Your task to perform on an android device: Clear the shopping cart on target. Add "usb-a to usb-b" to the cart on target, then select checkout. Image 0: 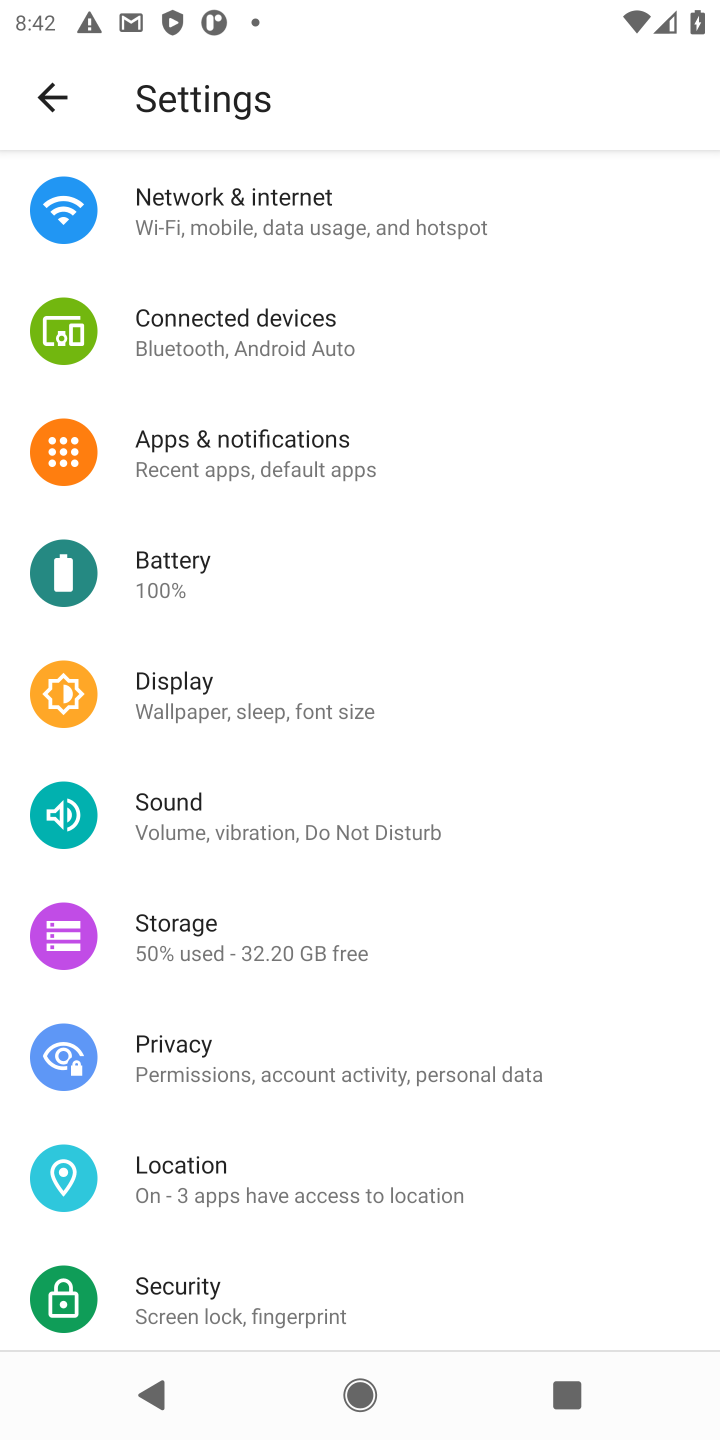
Step 0: press home button
Your task to perform on an android device: Clear the shopping cart on target. Add "usb-a to usb-b" to the cart on target, then select checkout. Image 1: 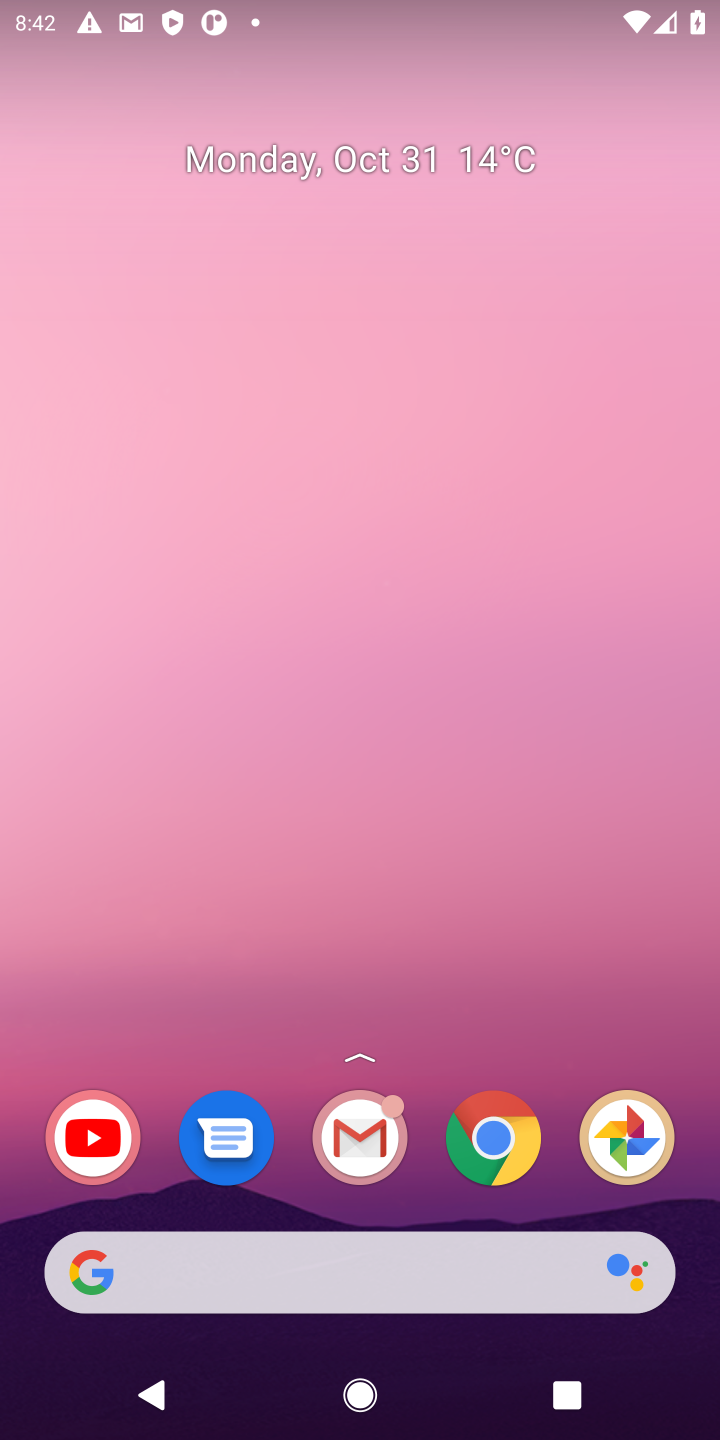
Step 1: click (505, 1148)
Your task to perform on an android device: Clear the shopping cart on target. Add "usb-a to usb-b" to the cart on target, then select checkout. Image 2: 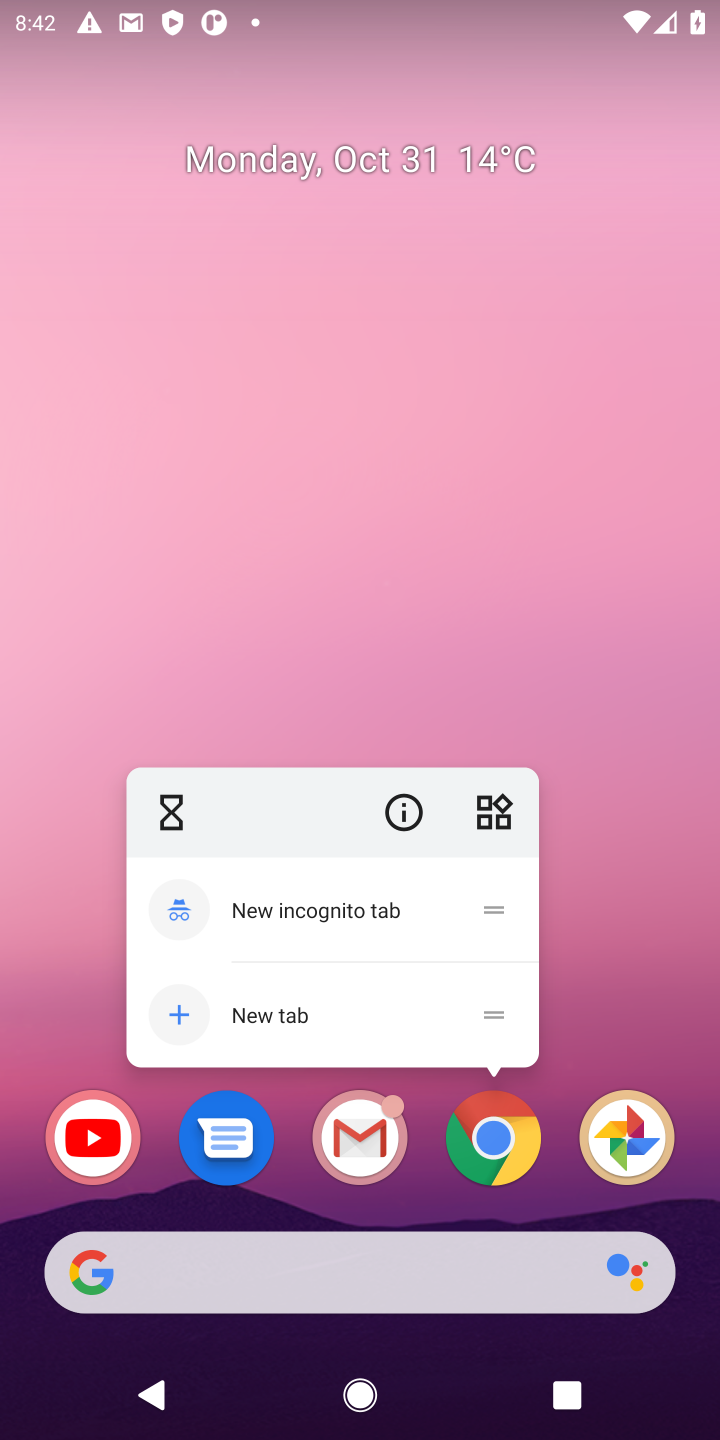
Step 2: click (528, 1152)
Your task to perform on an android device: Clear the shopping cart on target. Add "usb-a to usb-b" to the cart on target, then select checkout. Image 3: 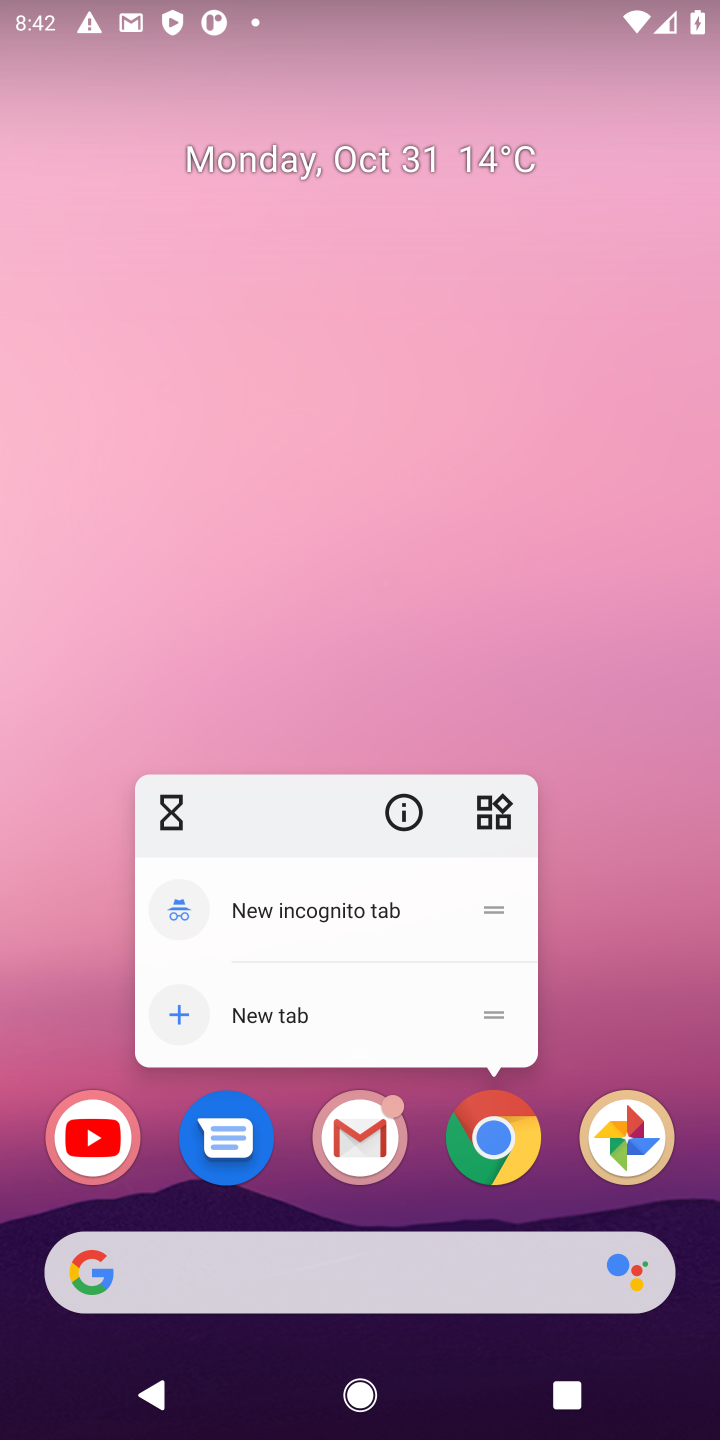
Step 3: click (467, 1132)
Your task to perform on an android device: Clear the shopping cart on target. Add "usb-a to usb-b" to the cart on target, then select checkout. Image 4: 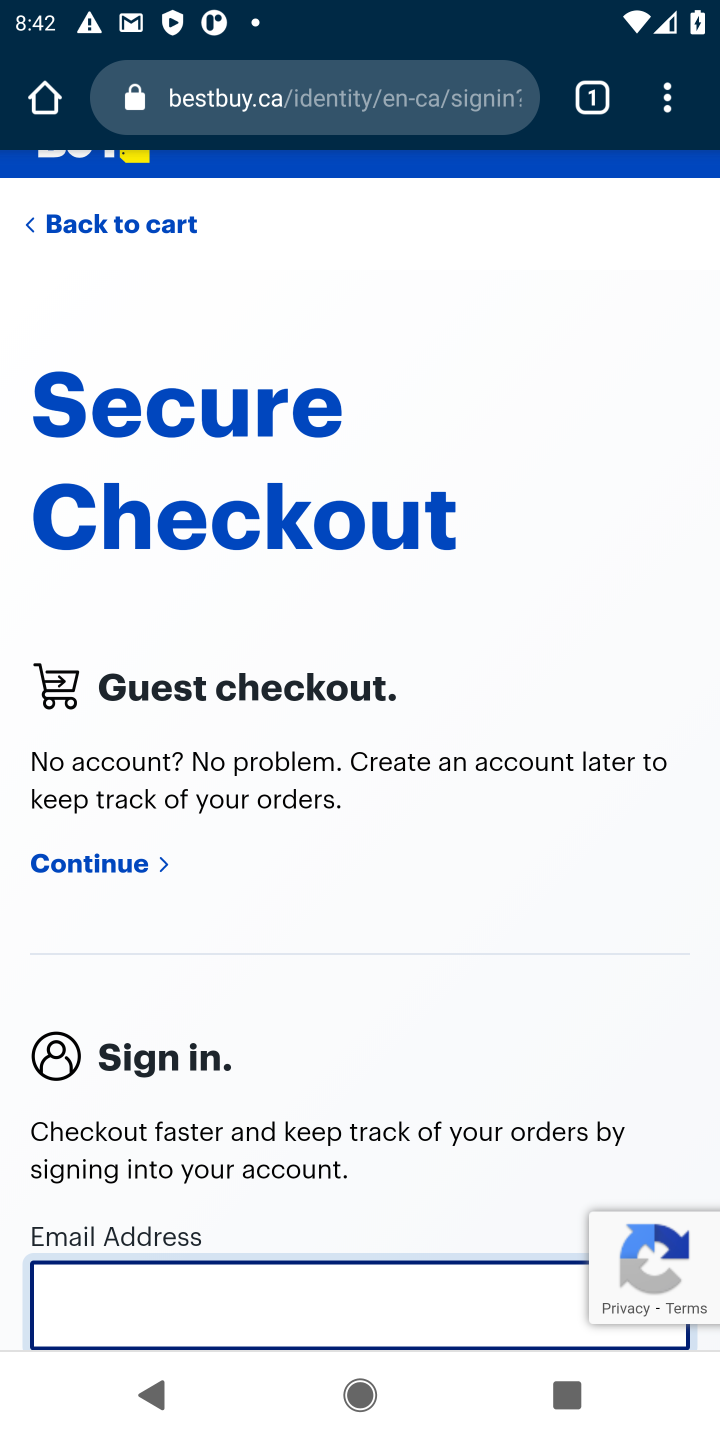
Step 4: click (286, 107)
Your task to perform on an android device: Clear the shopping cart on target. Add "usb-a to usb-b" to the cart on target, then select checkout. Image 5: 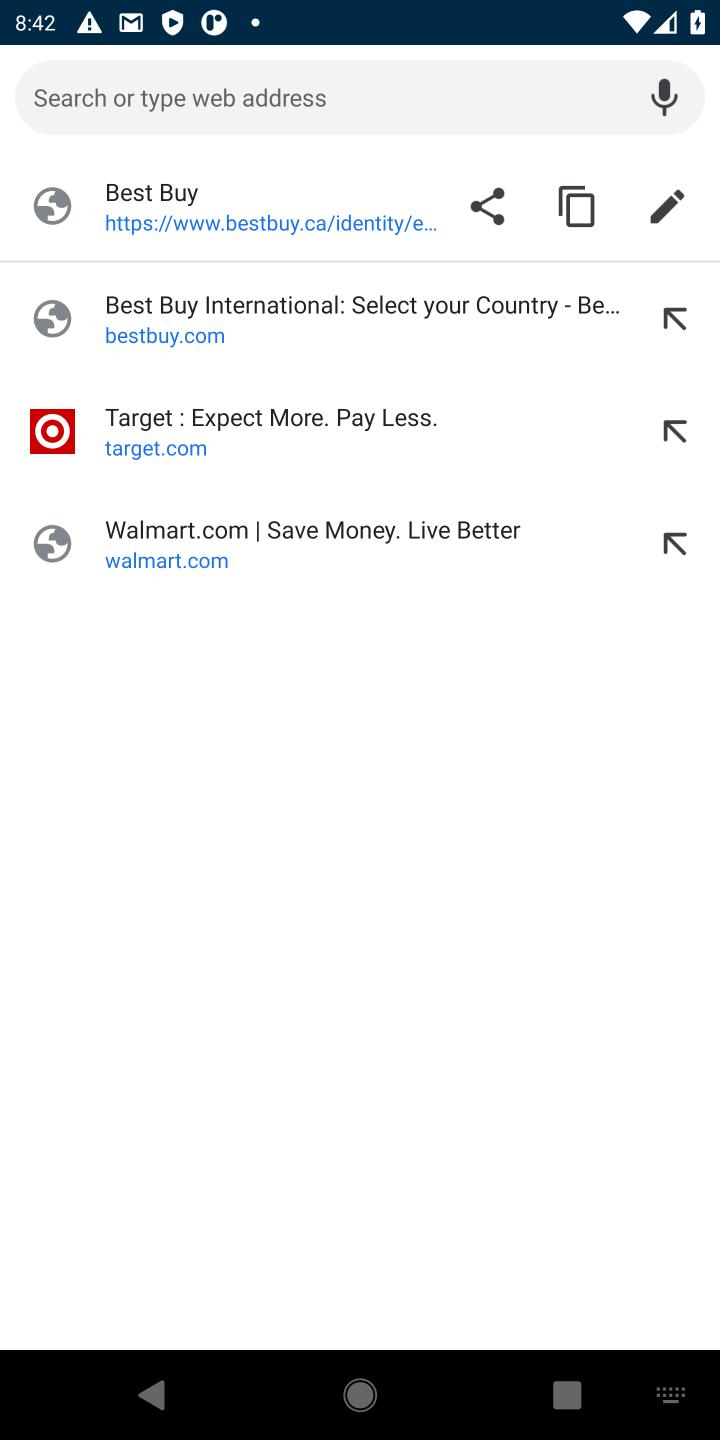
Step 5: type "target"
Your task to perform on an android device: Clear the shopping cart on target. Add "usb-a to usb-b" to the cart on target, then select checkout. Image 6: 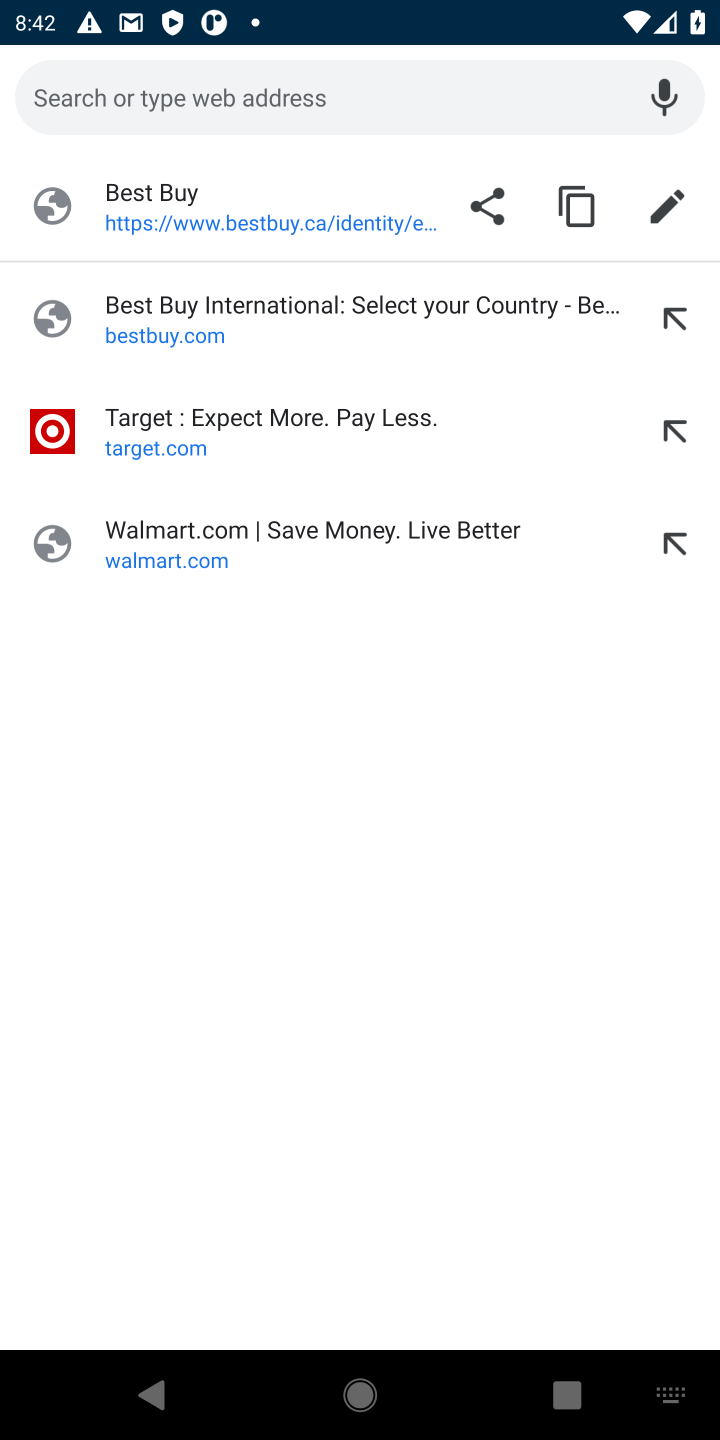
Step 6: click (108, 426)
Your task to perform on an android device: Clear the shopping cart on target. Add "usb-a to usb-b" to the cart on target, then select checkout. Image 7: 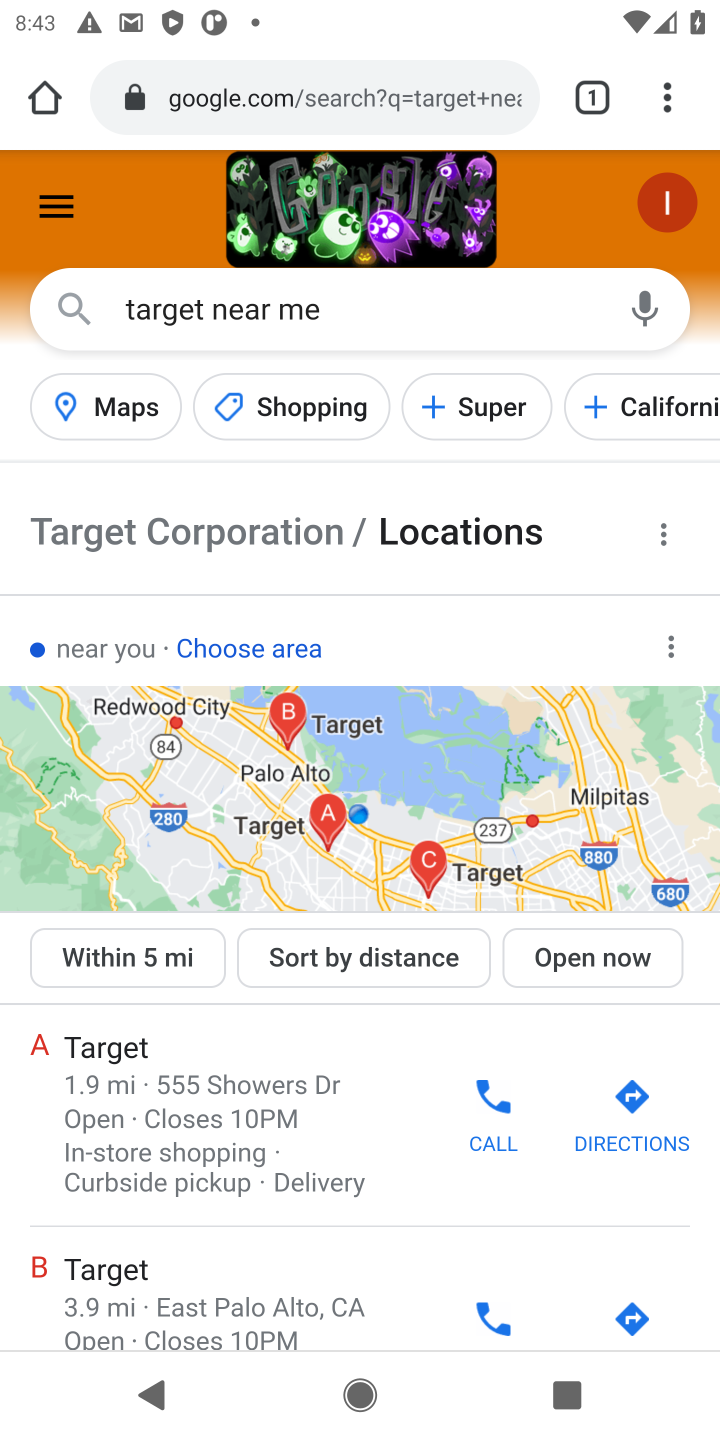
Step 7: drag from (183, 1178) to (242, 638)
Your task to perform on an android device: Clear the shopping cart on target. Add "usb-a to usb-b" to the cart on target, then select checkout. Image 8: 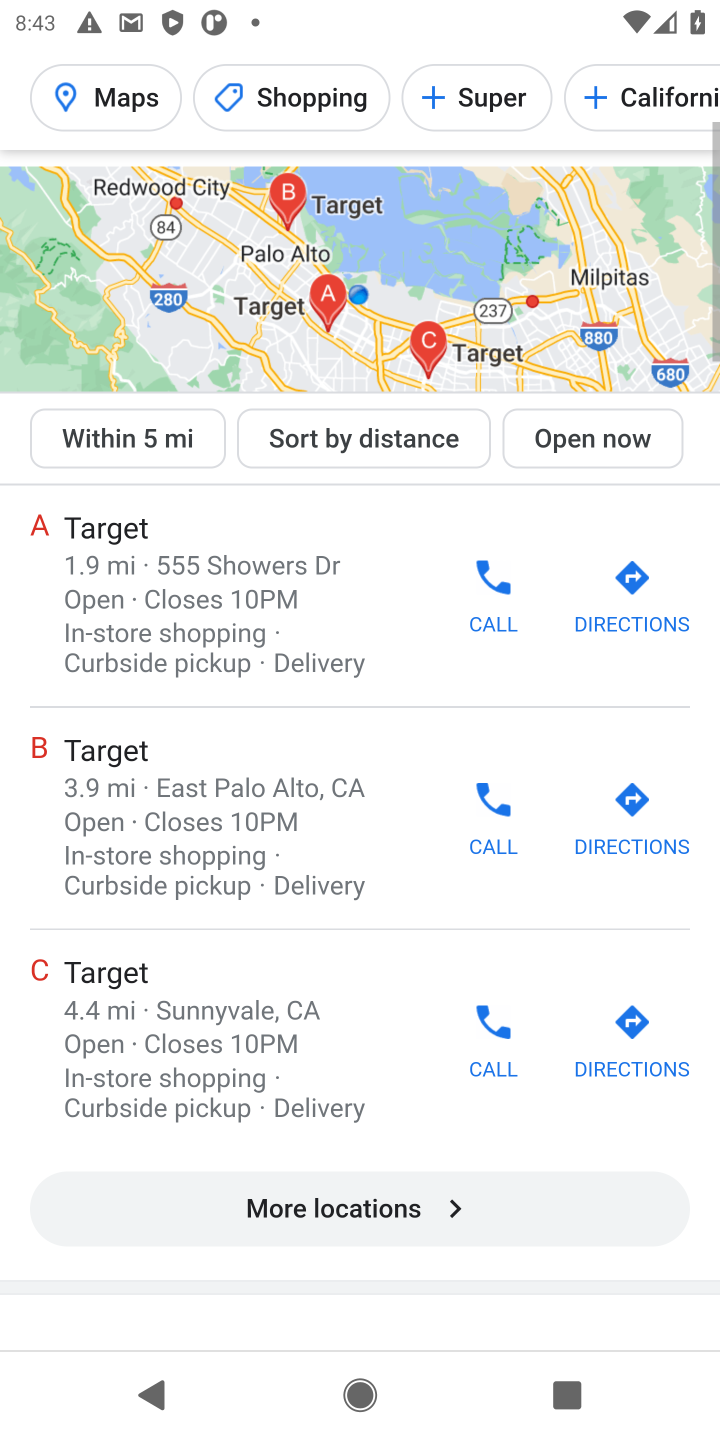
Step 8: drag from (174, 1117) to (192, 536)
Your task to perform on an android device: Clear the shopping cart on target. Add "usb-a to usb-b" to the cart on target, then select checkout. Image 9: 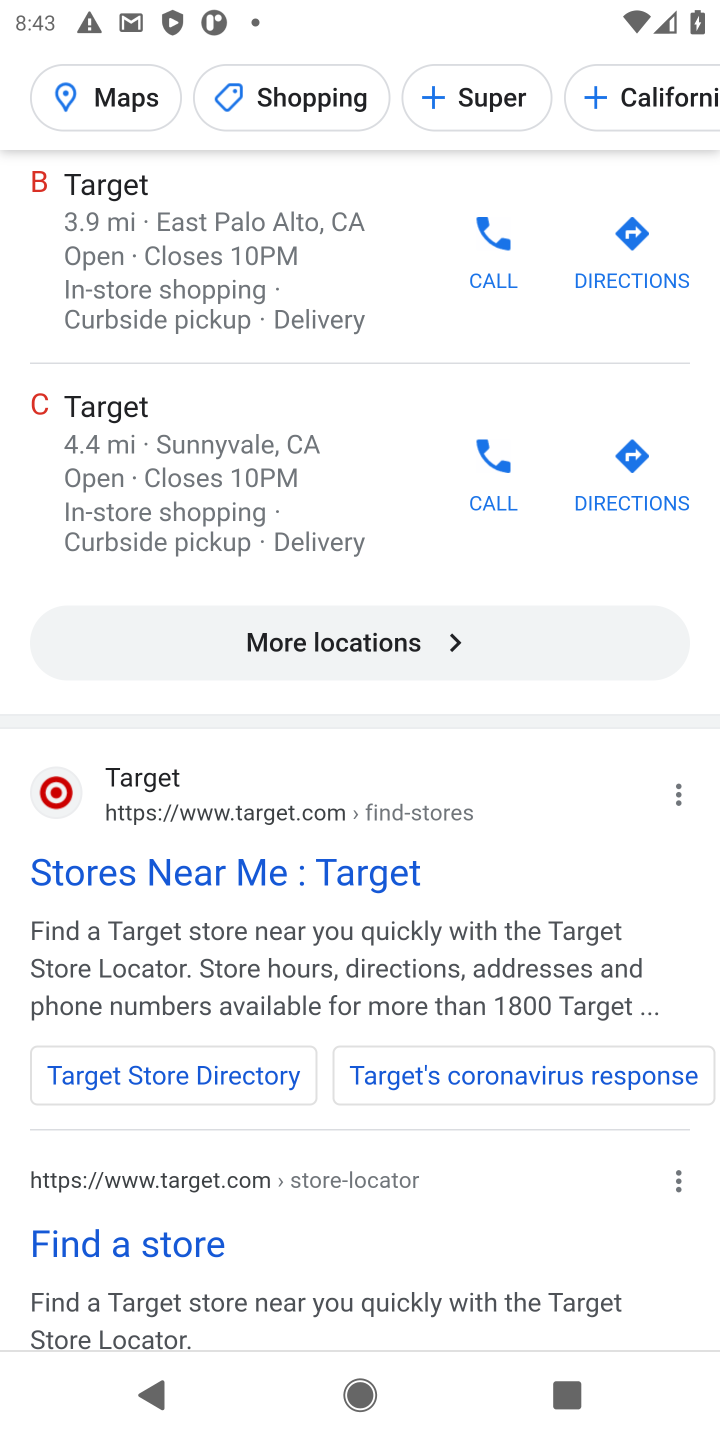
Step 9: drag from (248, 870) to (325, 415)
Your task to perform on an android device: Clear the shopping cart on target. Add "usb-a to usb-b" to the cart on target, then select checkout. Image 10: 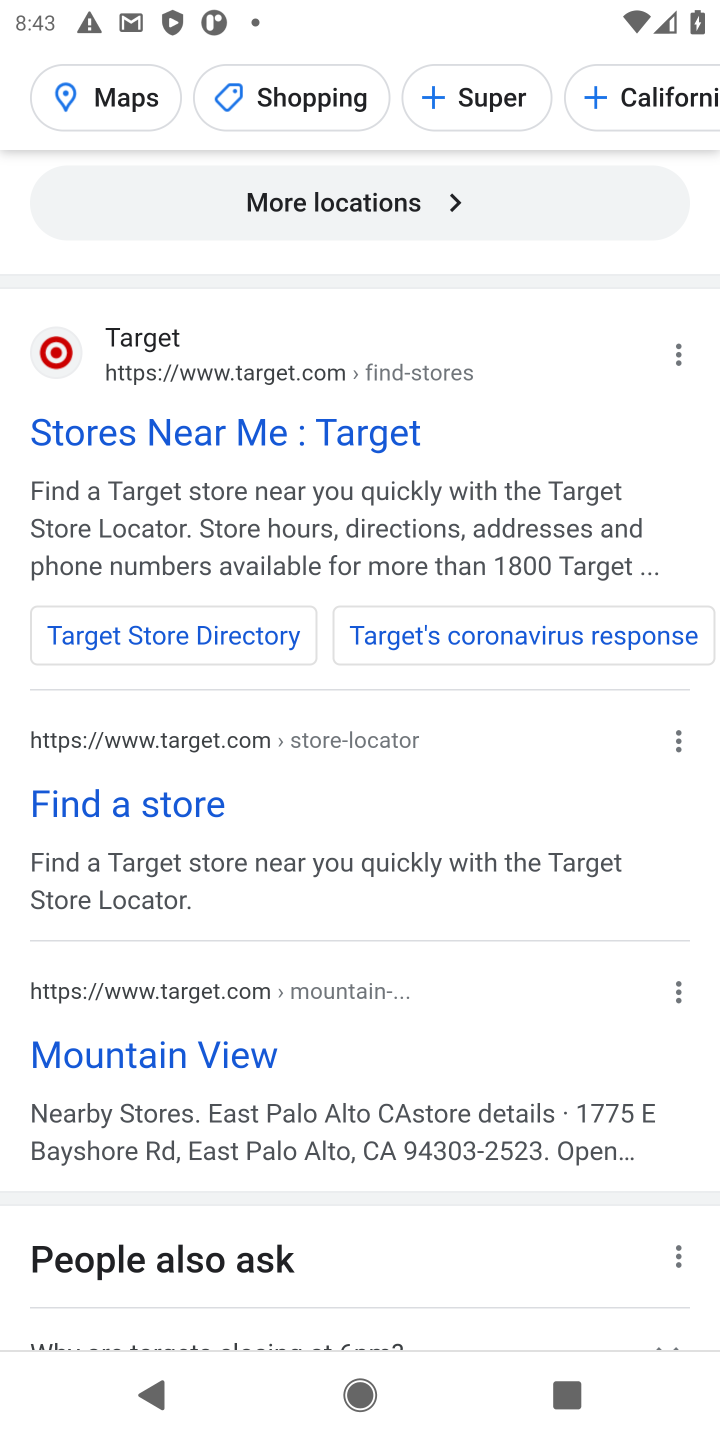
Step 10: click (106, 432)
Your task to perform on an android device: Clear the shopping cart on target. Add "usb-a to usb-b" to the cart on target, then select checkout. Image 11: 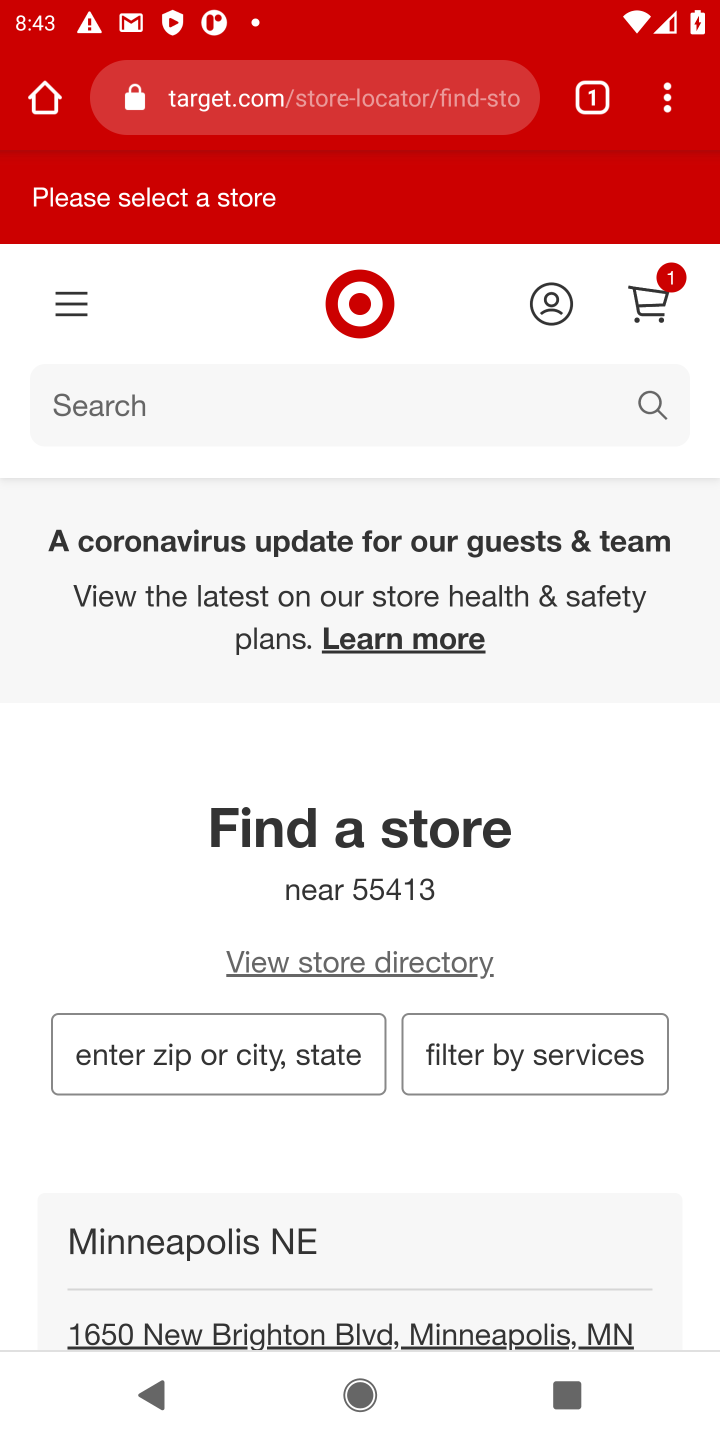
Step 11: click (639, 300)
Your task to perform on an android device: Clear the shopping cart on target. Add "usb-a to usb-b" to the cart on target, then select checkout. Image 12: 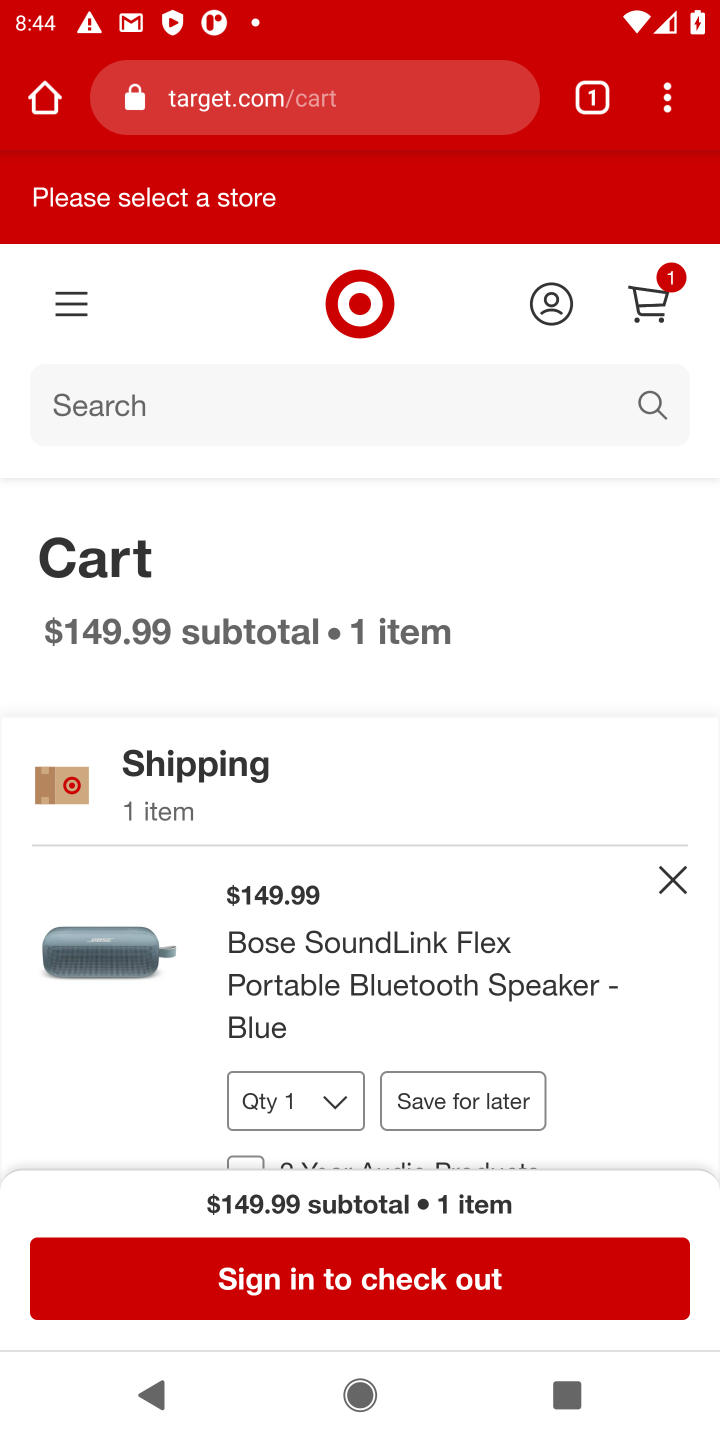
Step 12: drag from (105, 1036) to (166, 637)
Your task to perform on an android device: Clear the shopping cart on target. Add "usb-a to usb-b" to the cart on target, then select checkout. Image 13: 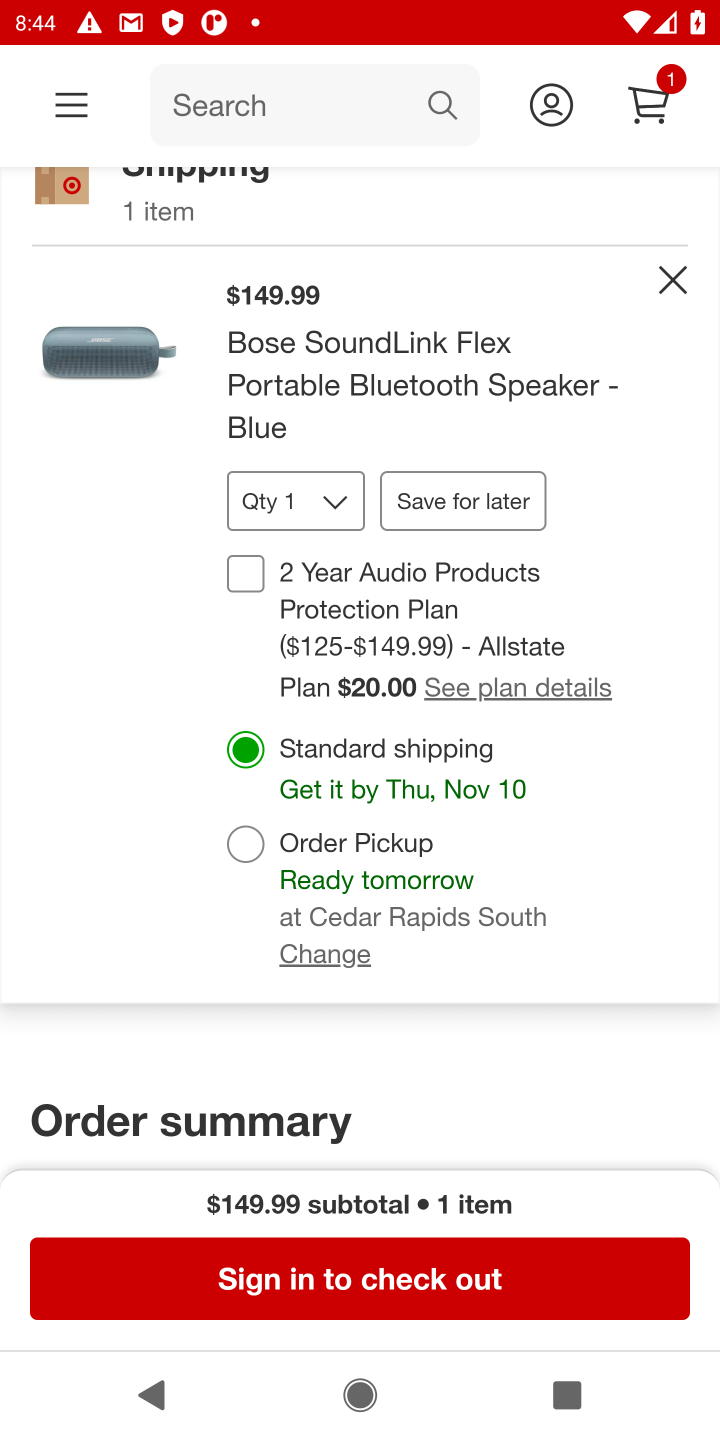
Step 13: drag from (158, 437) to (200, 534)
Your task to perform on an android device: Clear the shopping cart on target. Add "usb-a to usb-b" to the cart on target, then select checkout. Image 14: 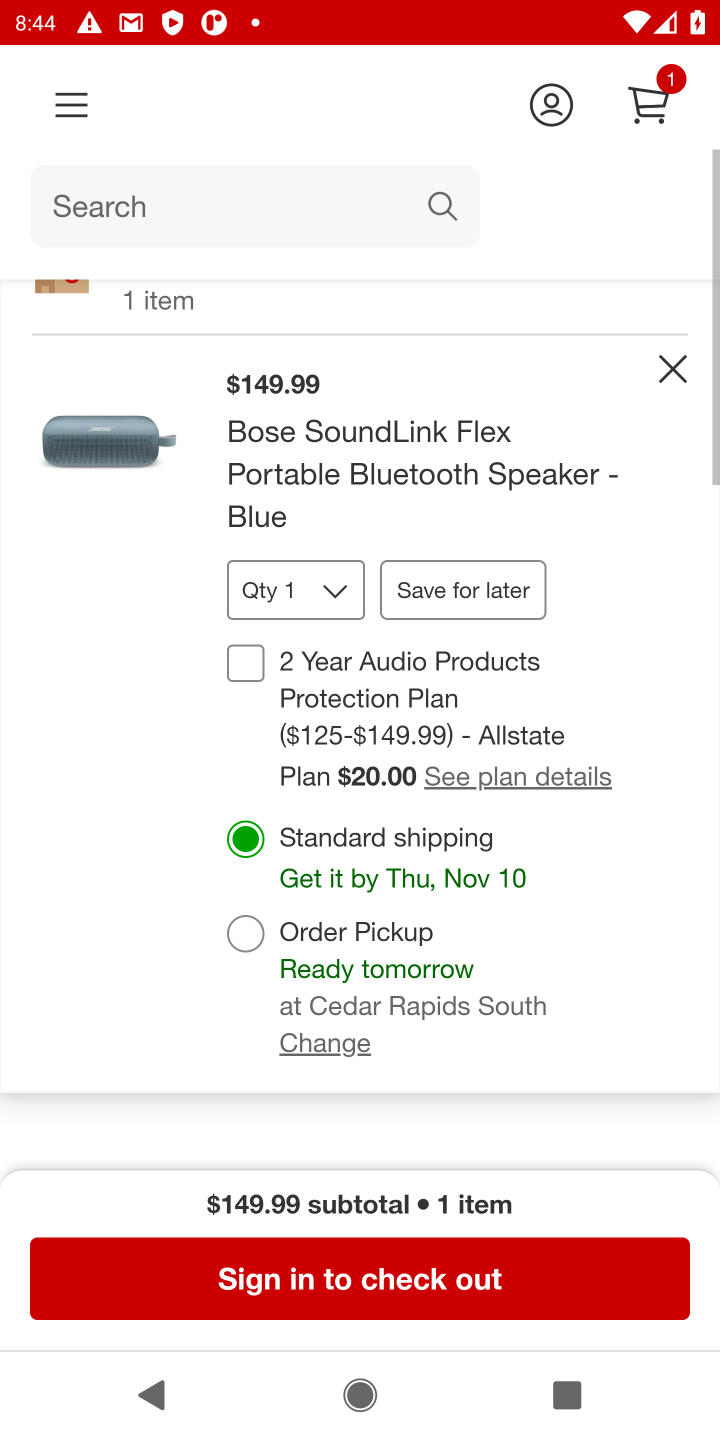
Step 14: drag from (105, 990) to (120, 451)
Your task to perform on an android device: Clear the shopping cart on target. Add "usb-a to usb-b" to the cart on target, then select checkout. Image 15: 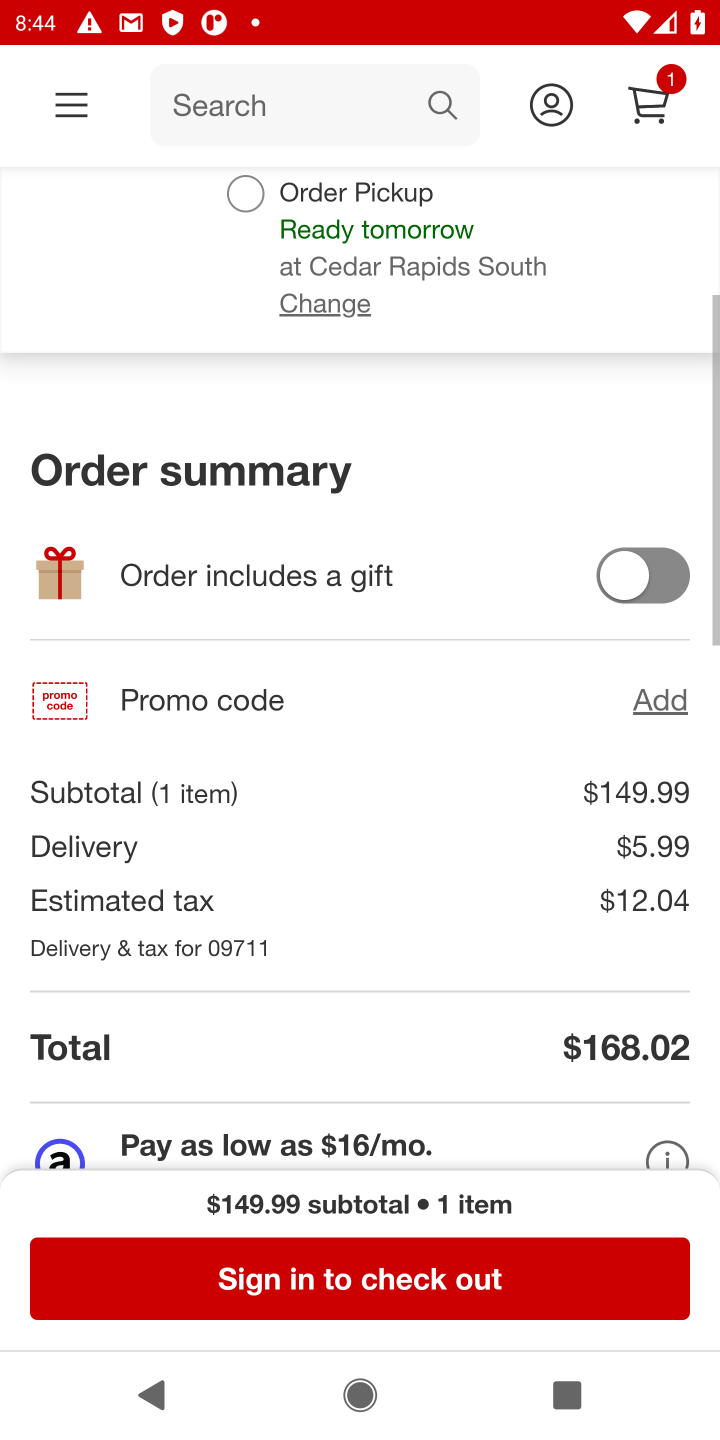
Step 15: drag from (163, 325) to (178, 1011)
Your task to perform on an android device: Clear the shopping cart on target. Add "usb-a to usb-b" to the cart on target, then select checkout. Image 16: 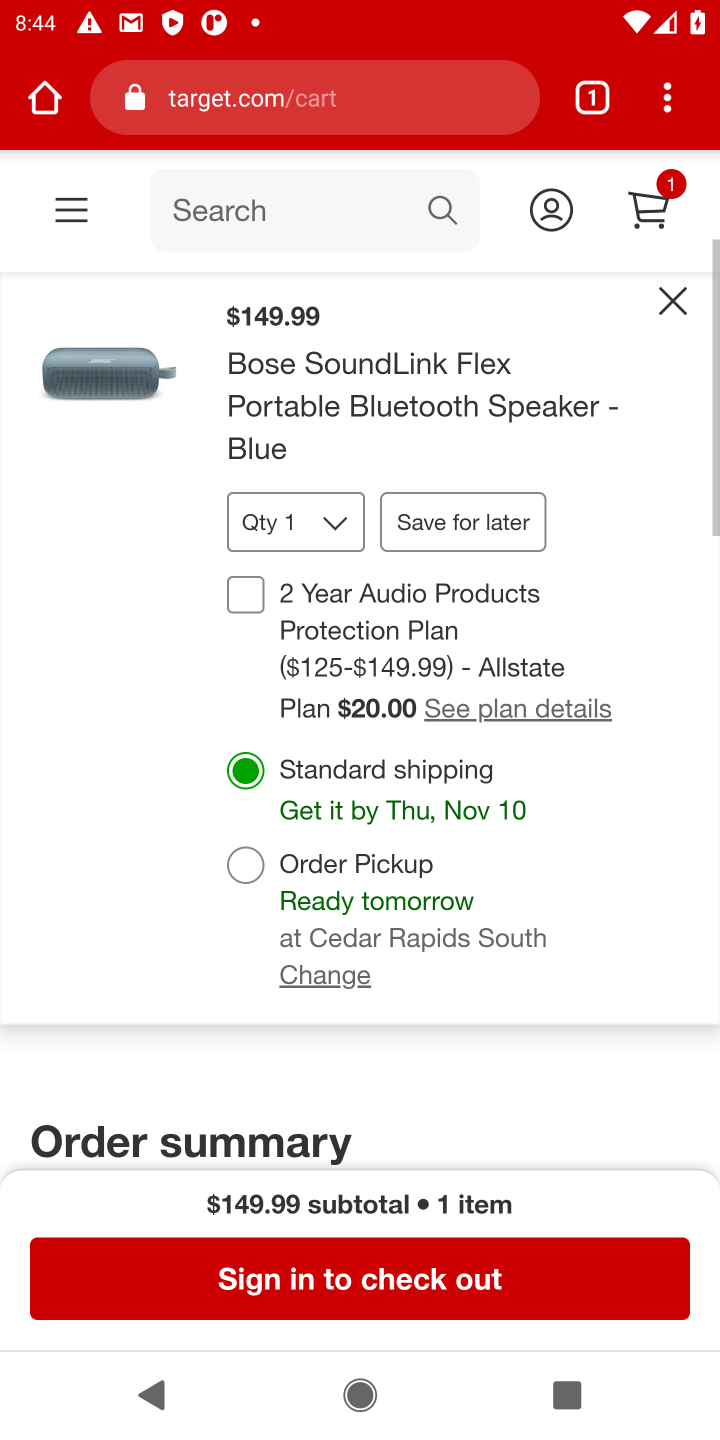
Step 16: drag from (102, 438) to (135, 955)
Your task to perform on an android device: Clear the shopping cart on target. Add "usb-a to usb-b" to the cart on target, then select checkout. Image 17: 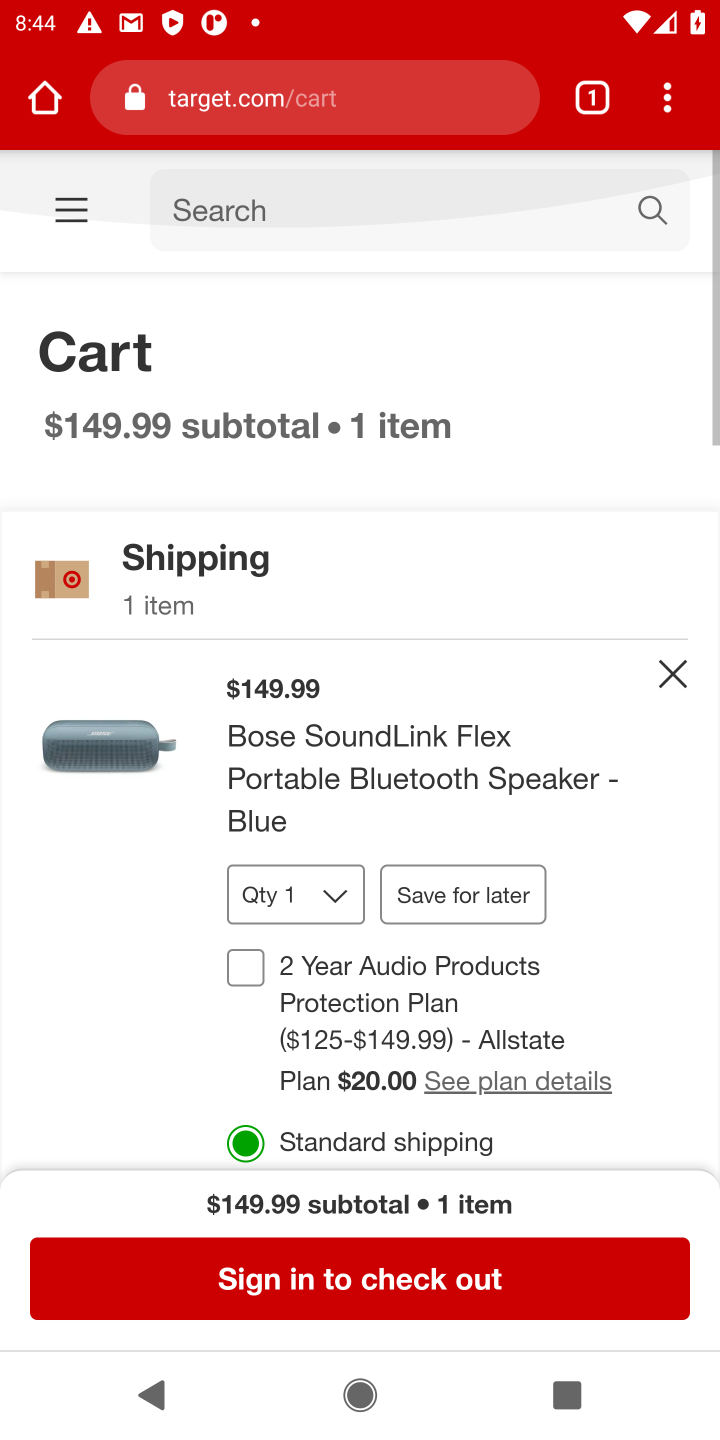
Step 17: press back button
Your task to perform on an android device: Clear the shopping cart on target. Add "usb-a to usb-b" to the cart on target, then select checkout. Image 18: 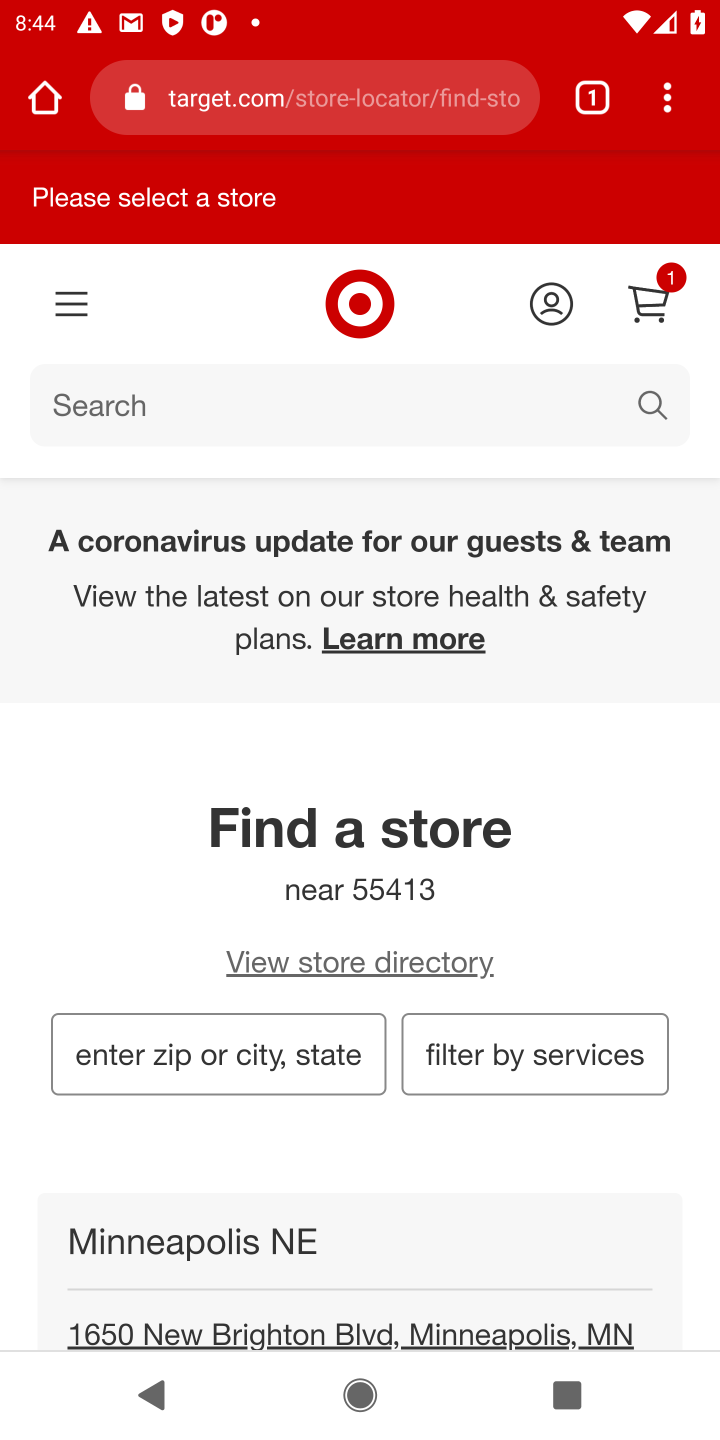
Step 18: click (651, 409)
Your task to perform on an android device: Clear the shopping cart on target. Add "usb-a to usb-b" to the cart on target, then select checkout. Image 19: 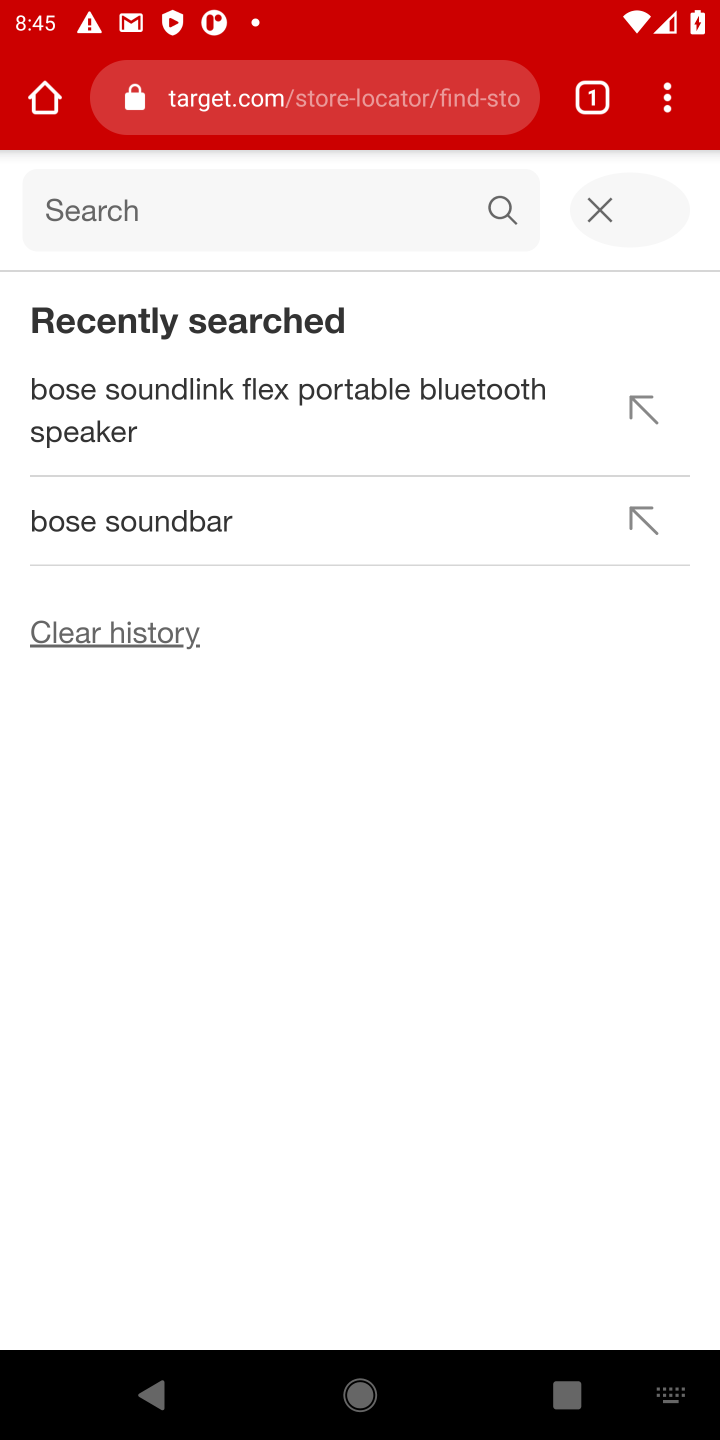
Step 19: type "usb a  to usb b "
Your task to perform on an android device: Clear the shopping cart on target. Add "usb-a to usb-b" to the cart on target, then select checkout. Image 20: 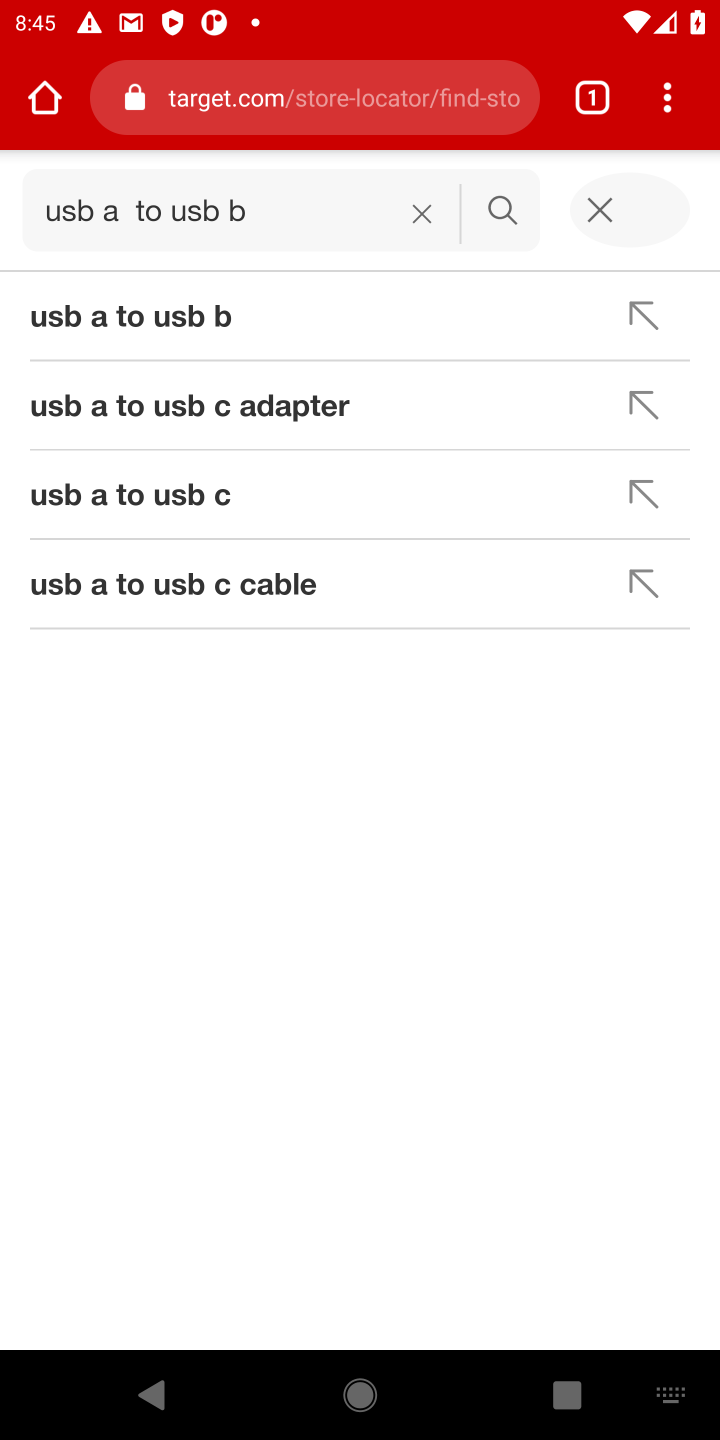
Step 20: click (193, 314)
Your task to perform on an android device: Clear the shopping cart on target. Add "usb-a to usb-b" to the cart on target, then select checkout. Image 21: 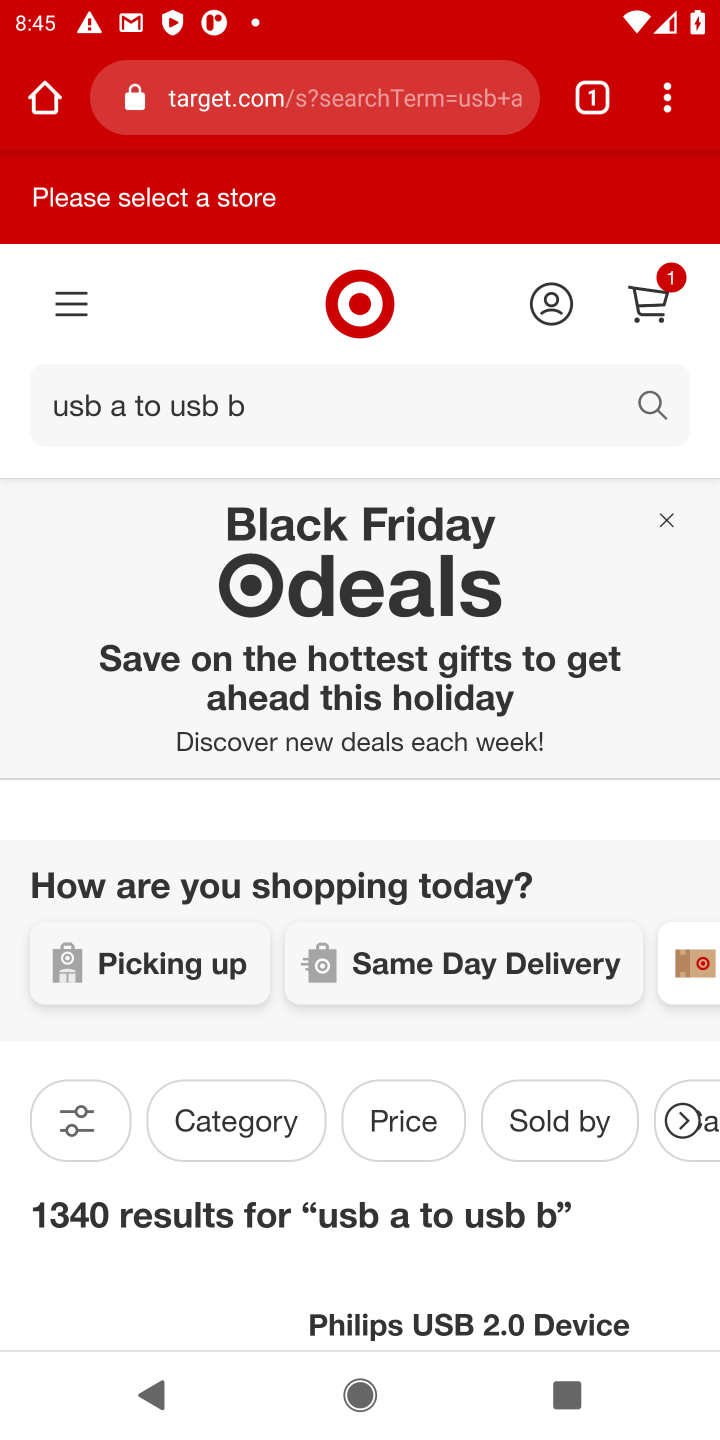
Step 21: drag from (314, 1064) to (369, 166)
Your task to perform on an android device: Clear the shopping cart on target. Add "usb-a to usb-b" to the cart on target, then select checkout. Image 22: 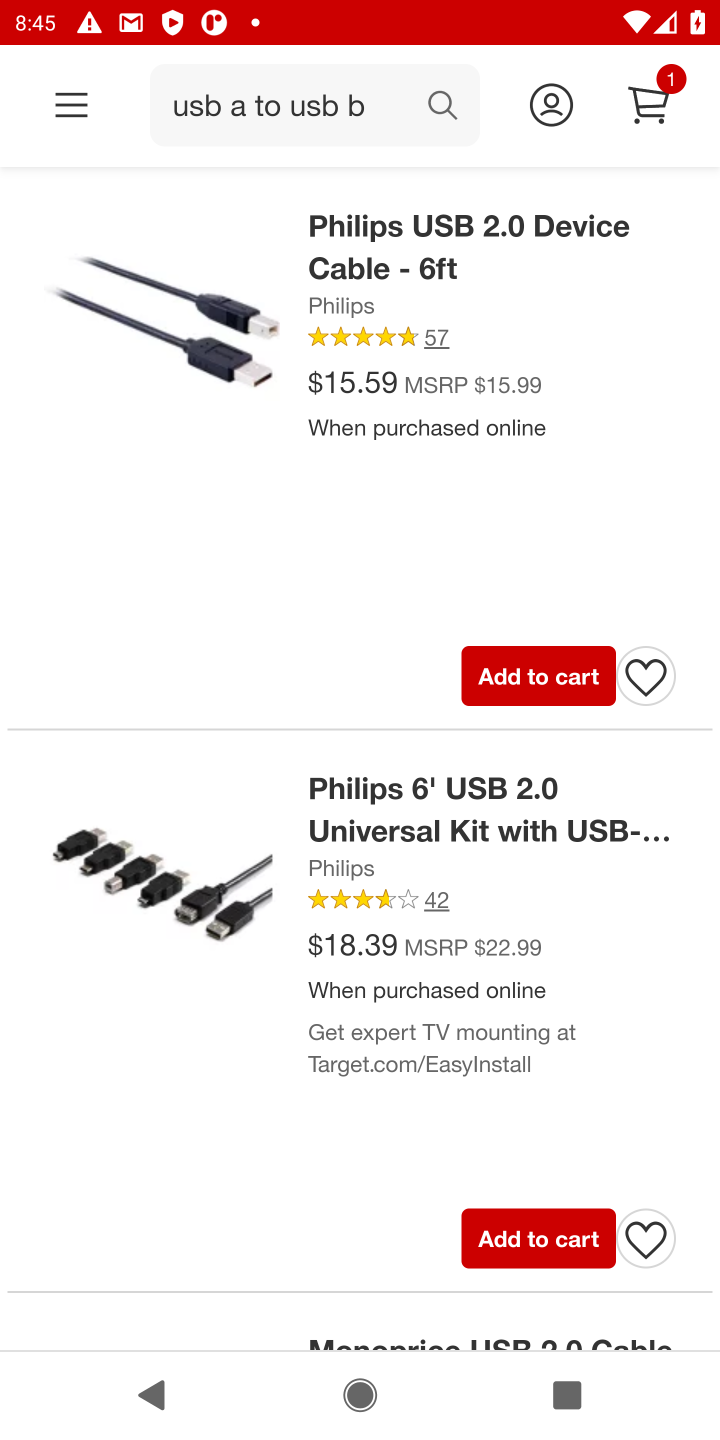
Step 22: drag from (207, 908) to (262, 438)
Your task to perform on an android device: Clear the shopping cart on target. Add "usb-a to usb-b" to the cart on target, then select checkout. Image 23: 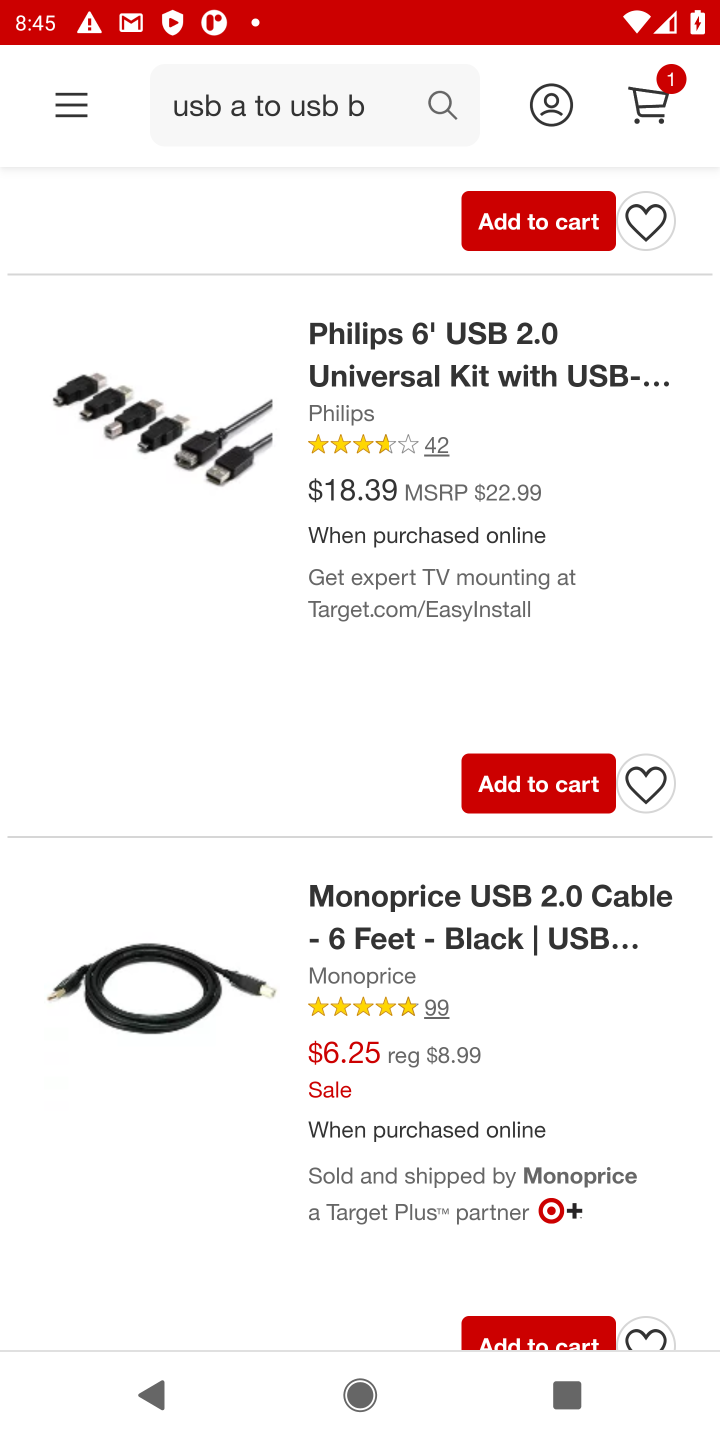
Step 23: click (233, 466)
Your task to perform on an android device: Clear the shopping cart on target. Add "usb-a to usb-b" to the cart on target, then select checkout. Image 24: 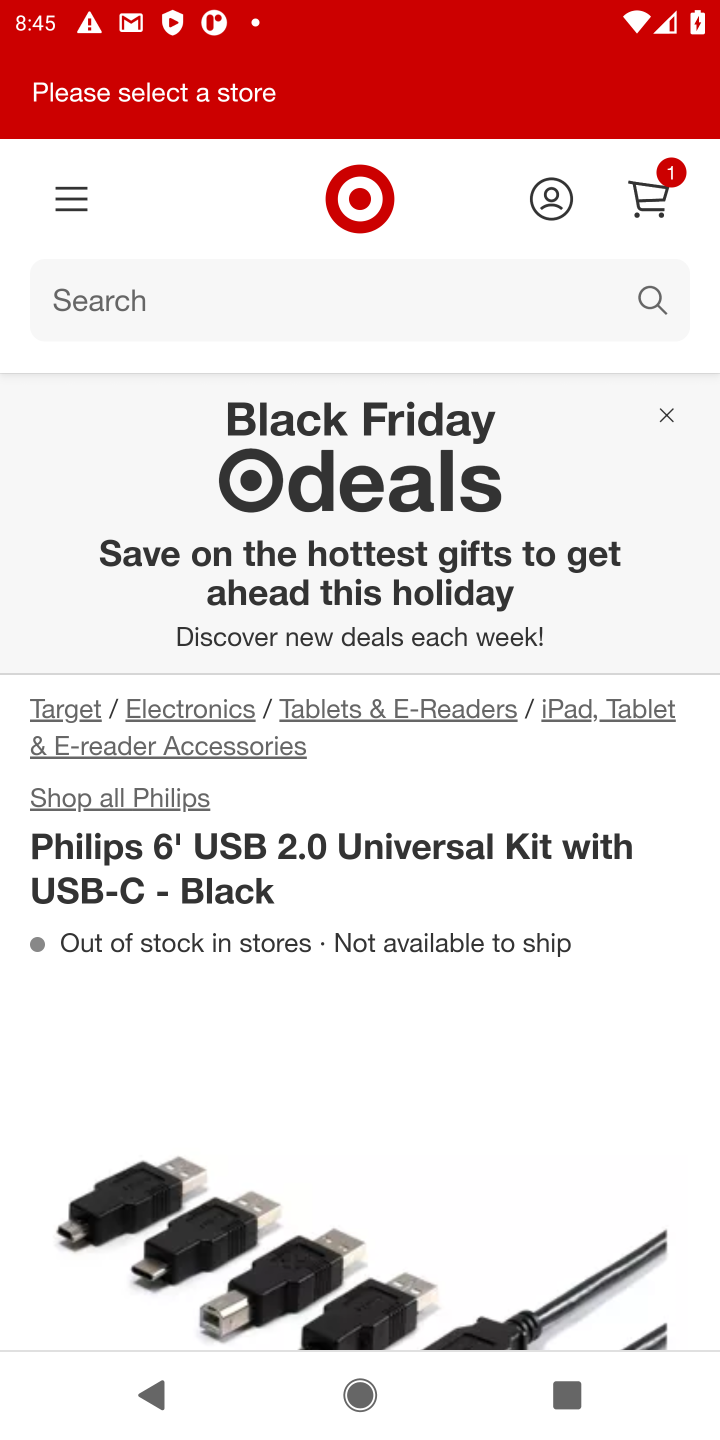
Step 24: drag from (309, 1148) to (348, 563)
Your task to perform on an android device: Clear the shopping cart on target. Add "usb-a to usb-b" to the cart on target, then select checkout. Image 25: 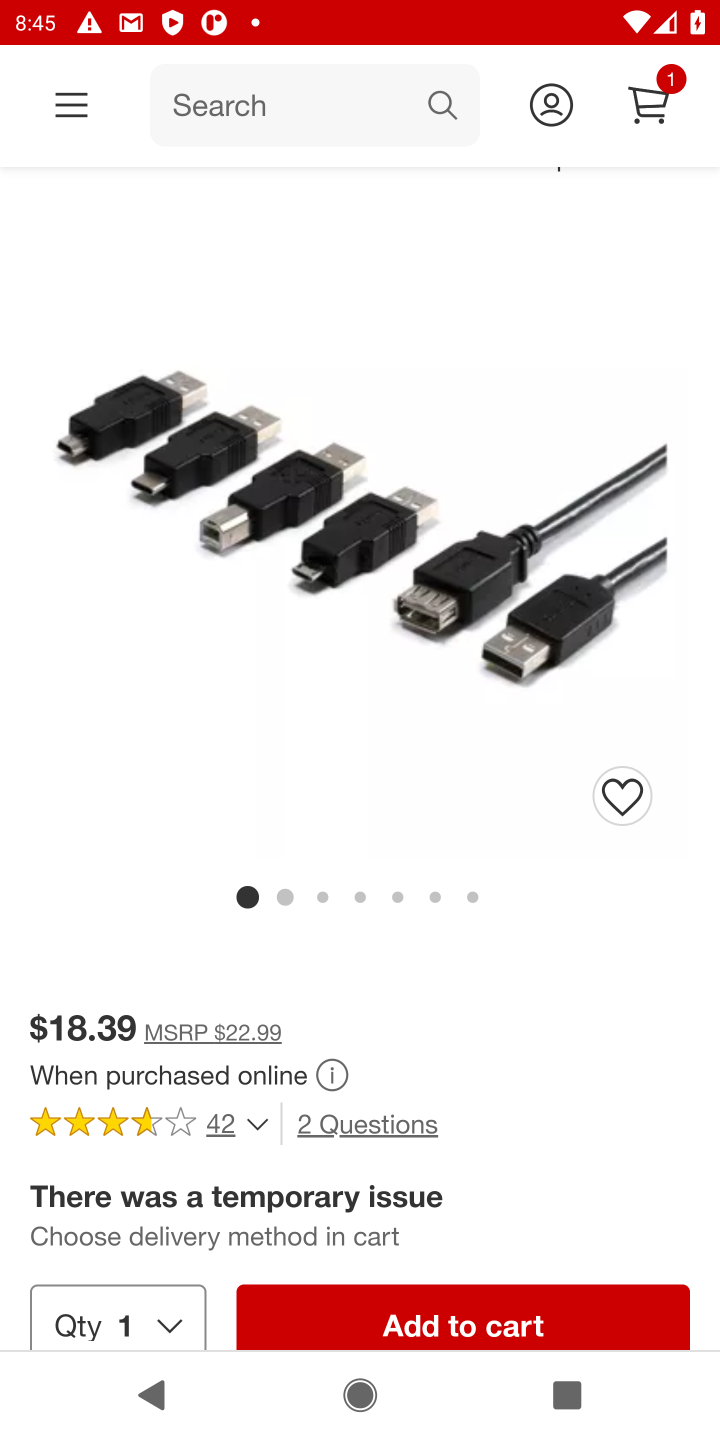
Step 25: drag from (290, 1138) to (312, 843)
Your task to perform on an android device: Clear the shopping cart on target. Add "usb-a to usb-b" to the cart on target, then select checkout. Image 26: 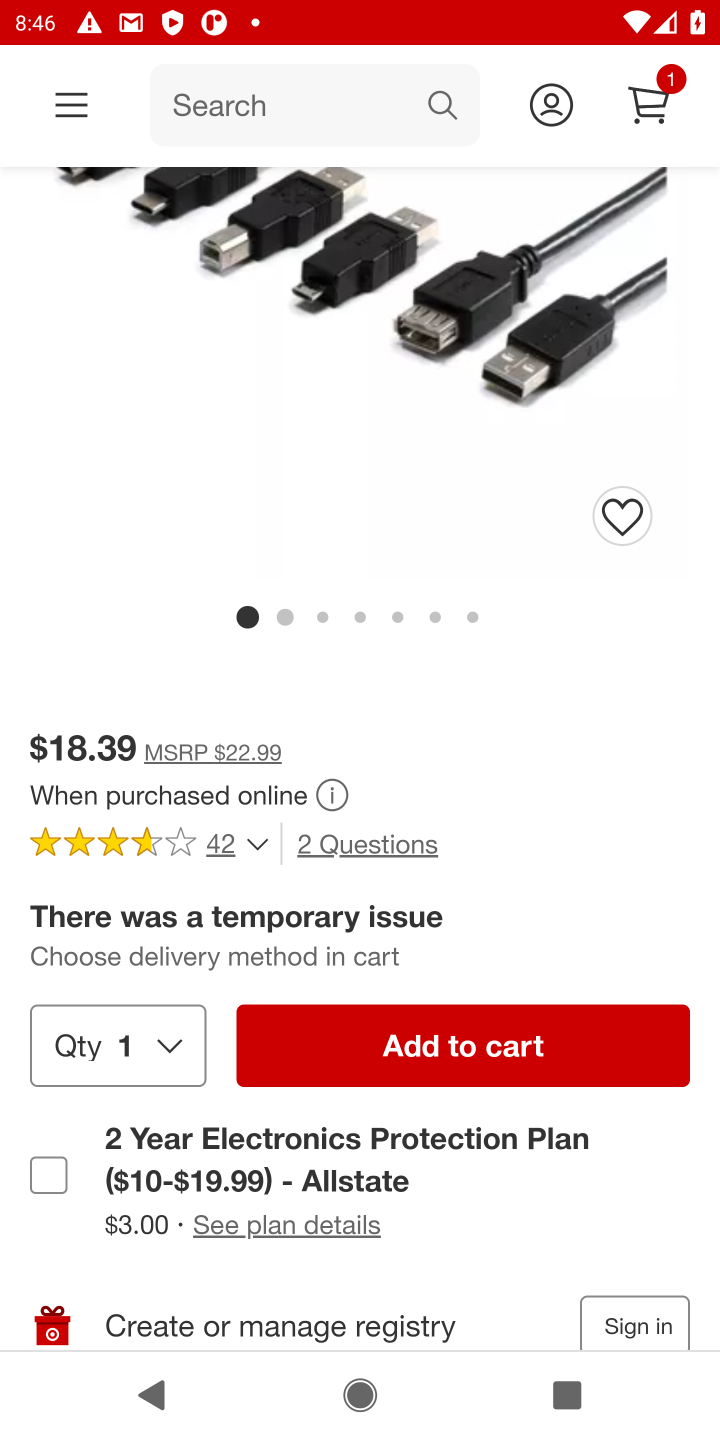
Step 26: click (452, 1043)
Your task to perform on an android device: Clear the shopping cart on target. Add "usb-a to usb-b" to the cart on target, then select checkout. Image 27: 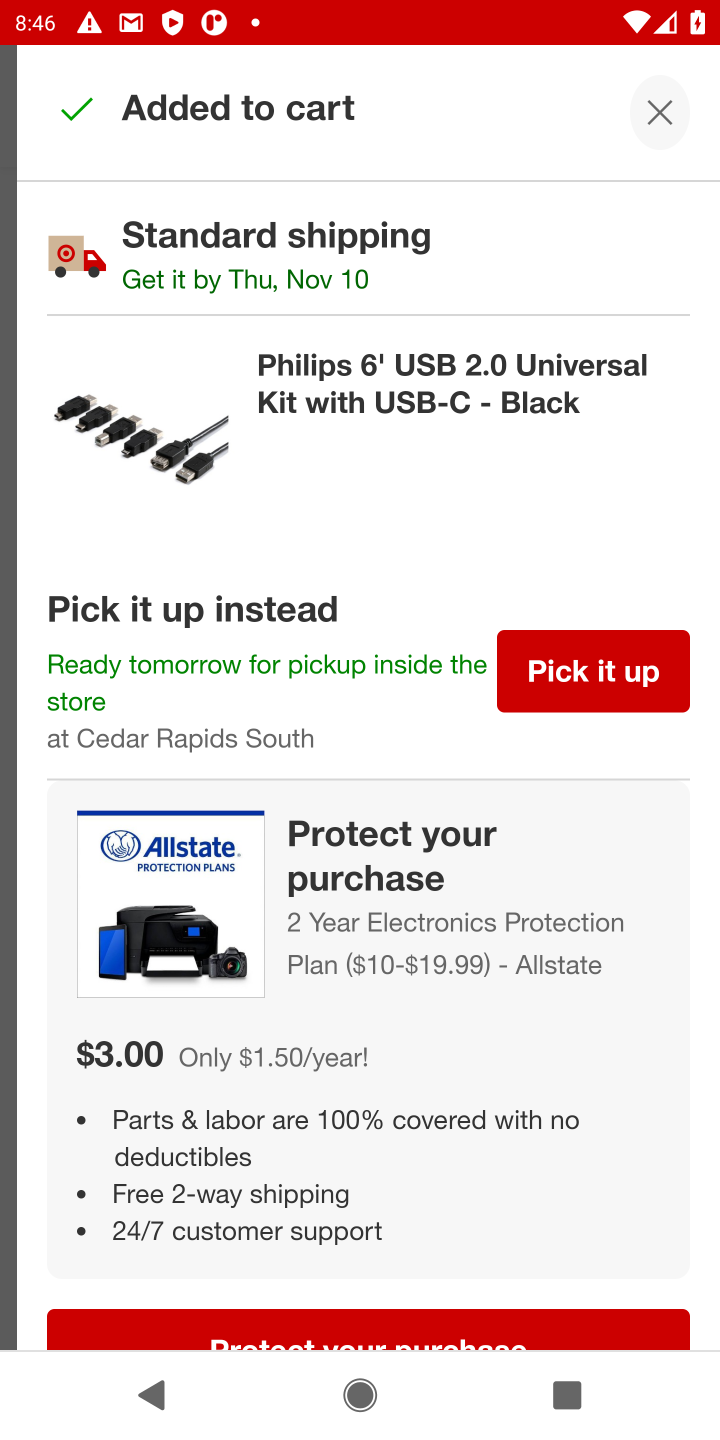
Step 27: drag from (442, 1108) to (482, 588)
Your task to perform on an android device: Clear the shopping cart on target. Add "usb-a to usb-b" to the cart on target, then select checkout. Image 28: 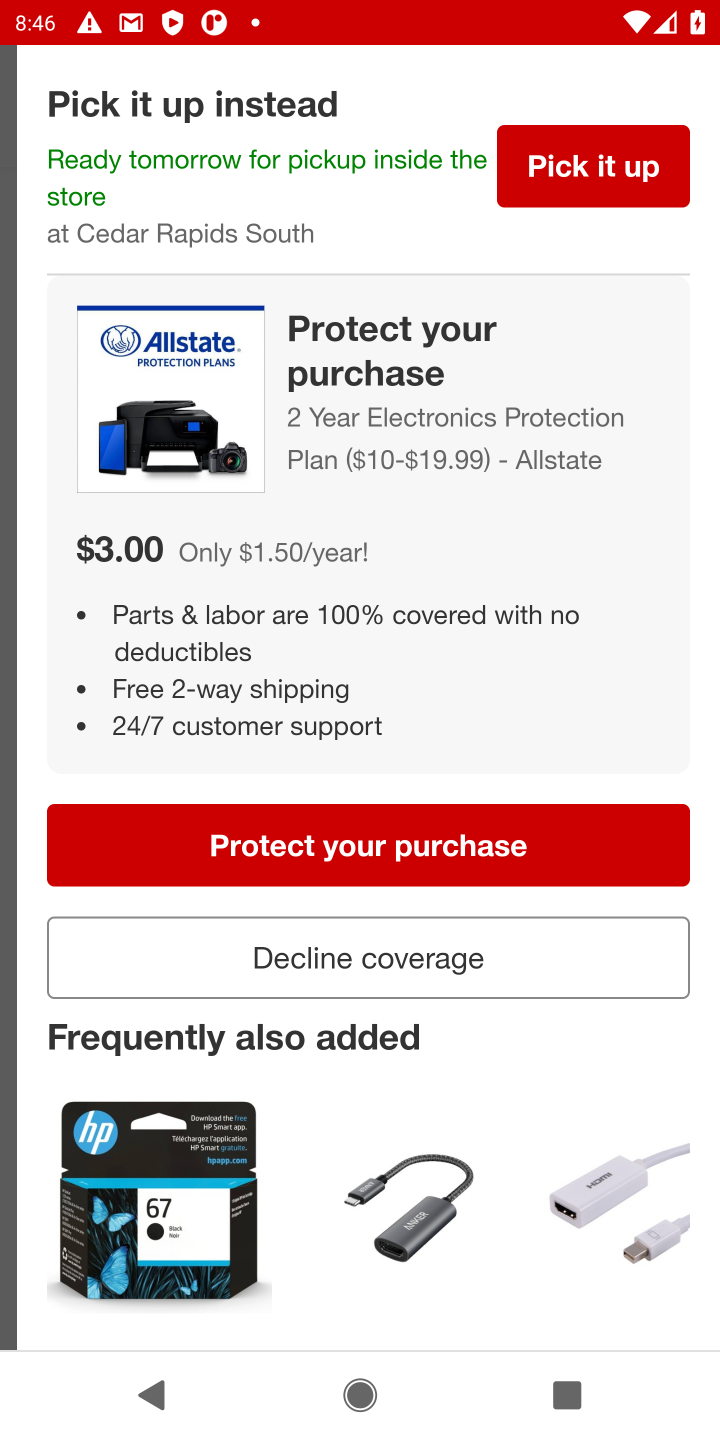
Step 28: drag from (548, 611) to (529, 978)
Your task to perform on an android device: Clear the shopping cart on target. Add "usb-a to usb-b" to the cart on target, then select checkout. Image 29: 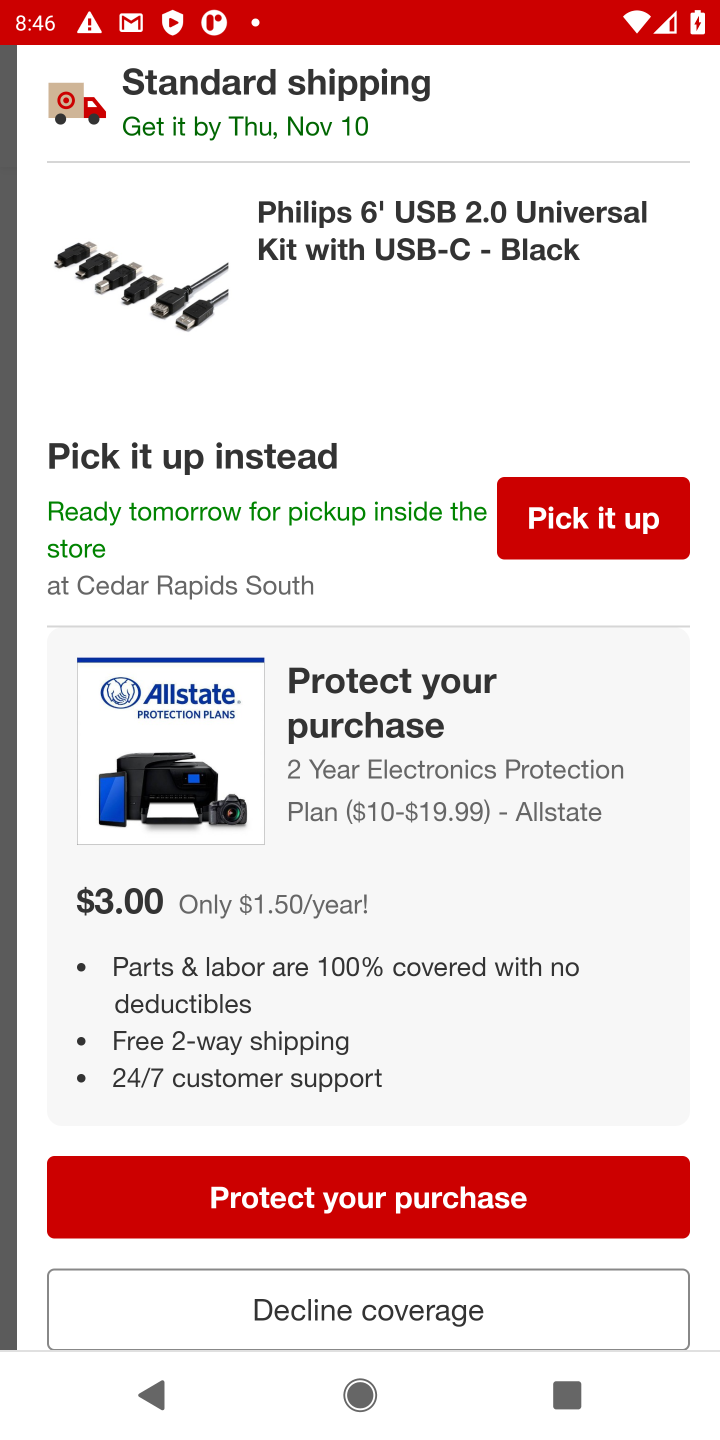
Step 29: drag from (237, 878) to (253, 586)
Your task to perform on an android device: Clear the shopping cart on target. Add "usb-a to usb-b" to the cart on target, then select checkout. Image 30: 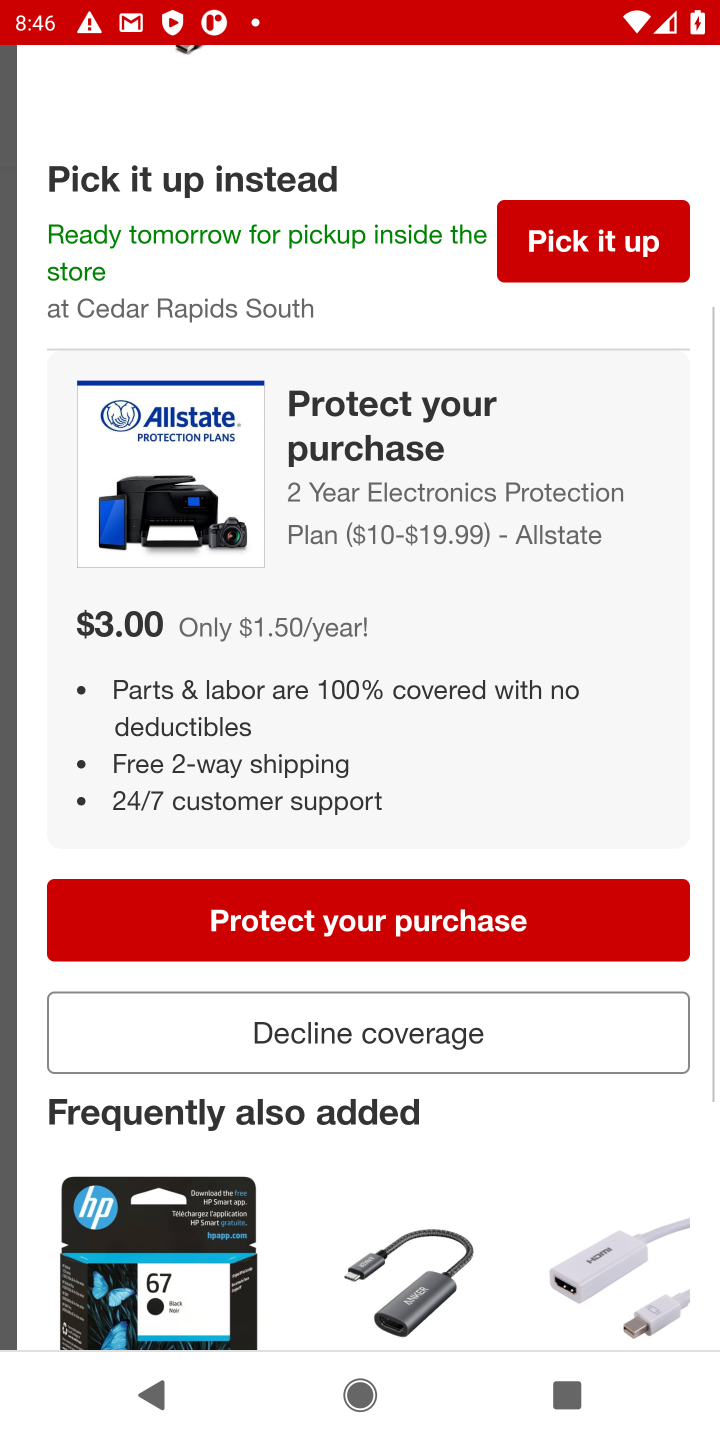
Step 30: drag from (308, 362) to (409, 1024)
Your task to perform on an android device: Clear the shopping cart on target. Add "usb-a to usb-b" to the cart on target, then select checkout. Image 31: 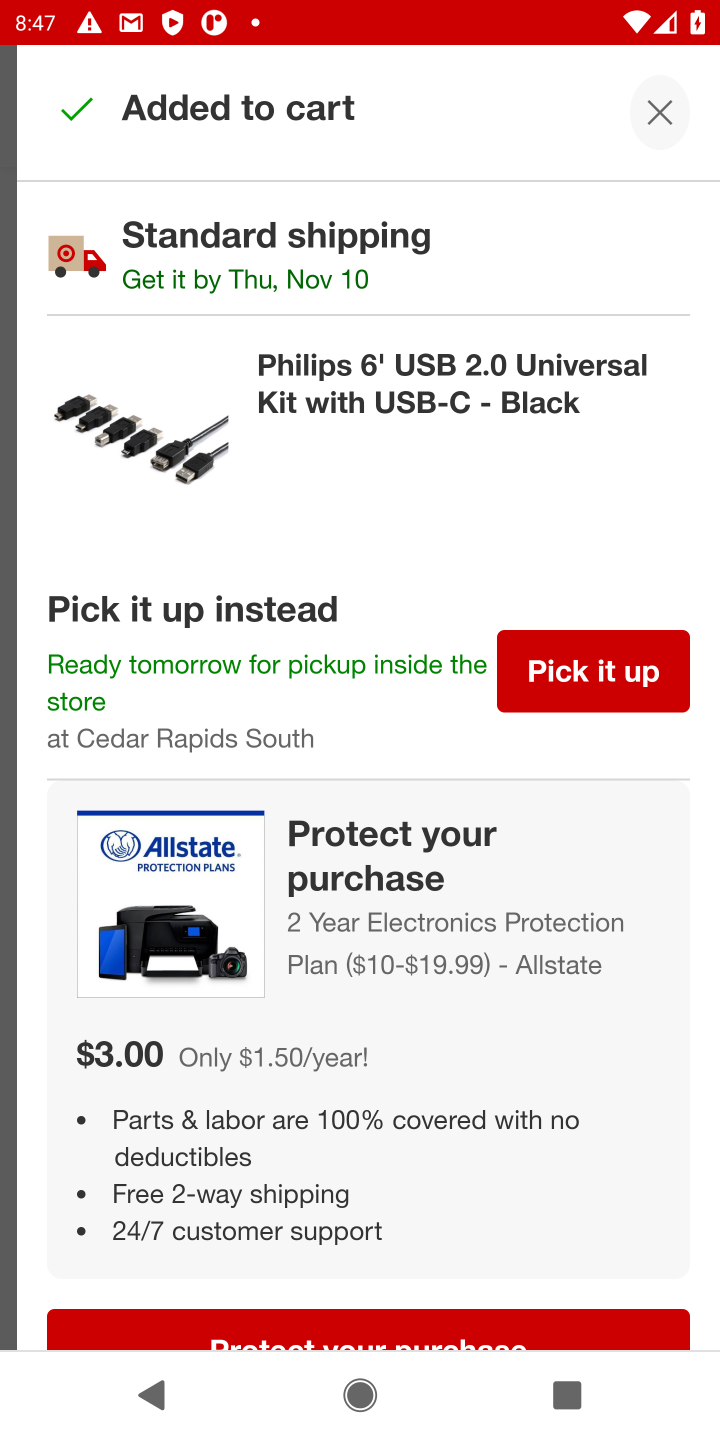
Step 31: drag from (339, 424) to (438, 1034)
Your task to perform on an android device: Clear the shopping cart on target. Add "usb-a to usb-b" to the cart on target, then select checkout. Image 32: 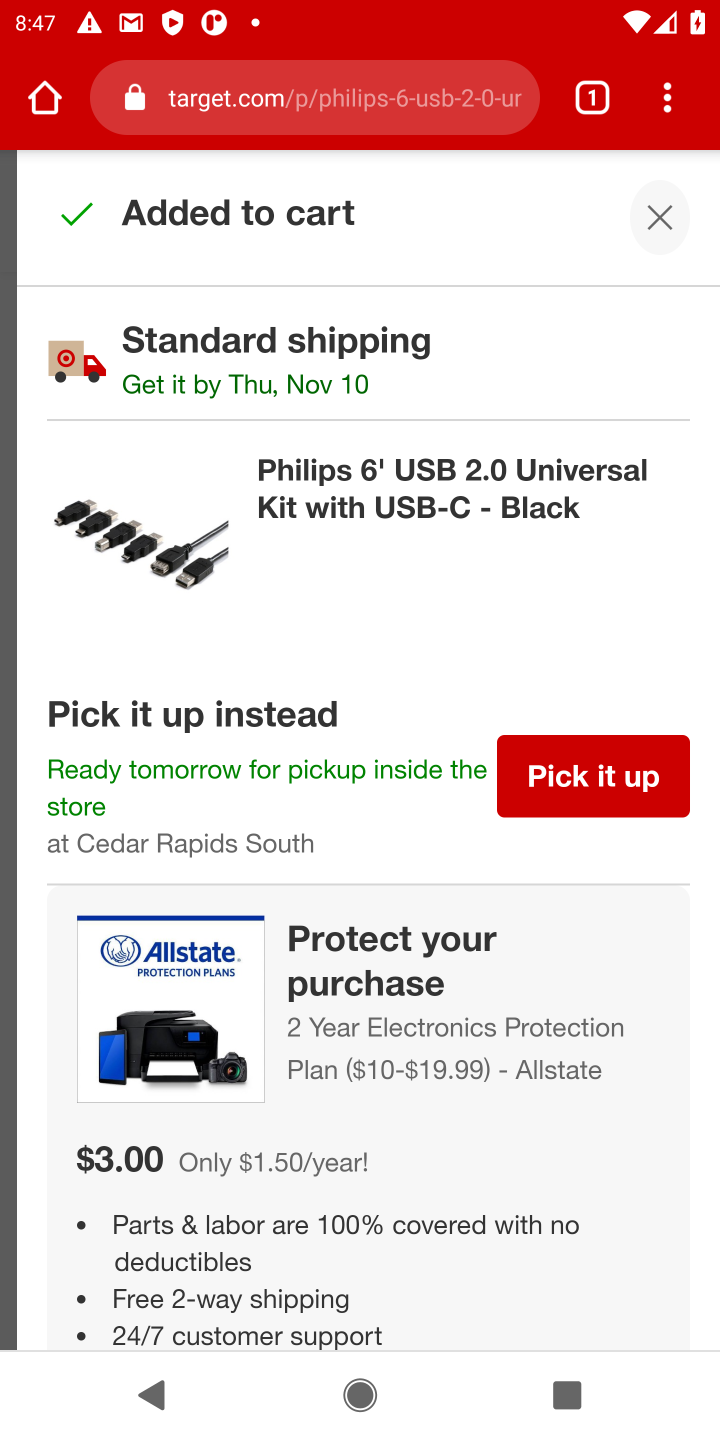
Step 32: click (568, 770)
Your task to perform on an android device: Clear the shopping cart on target. Add "usb-a to usb-b" to the cart on target, then select checkout. Image 33: 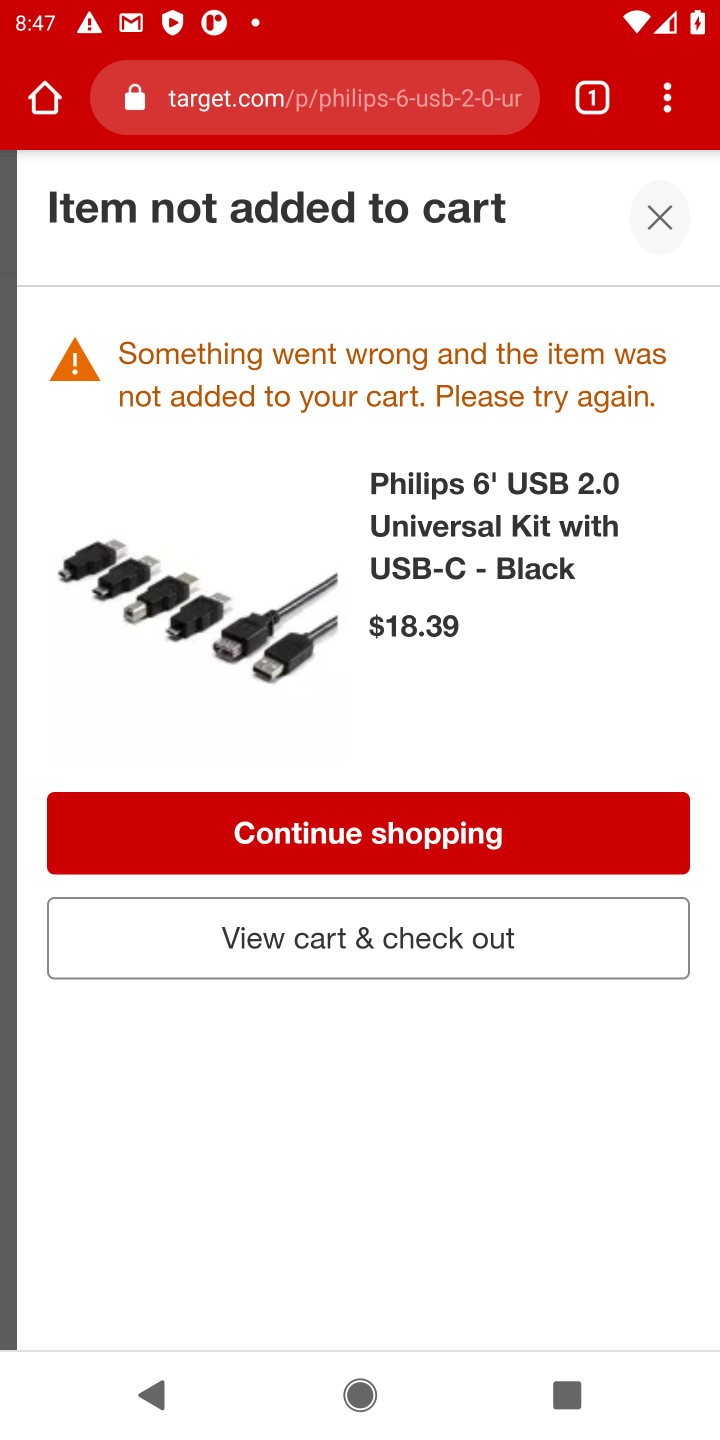
Step 33: click (419, 930)
Your task to perform on an android device: Clear the shopping cart on target. Add "usb-a to usb-b" to the cart on target, then select checkout. Image 34: 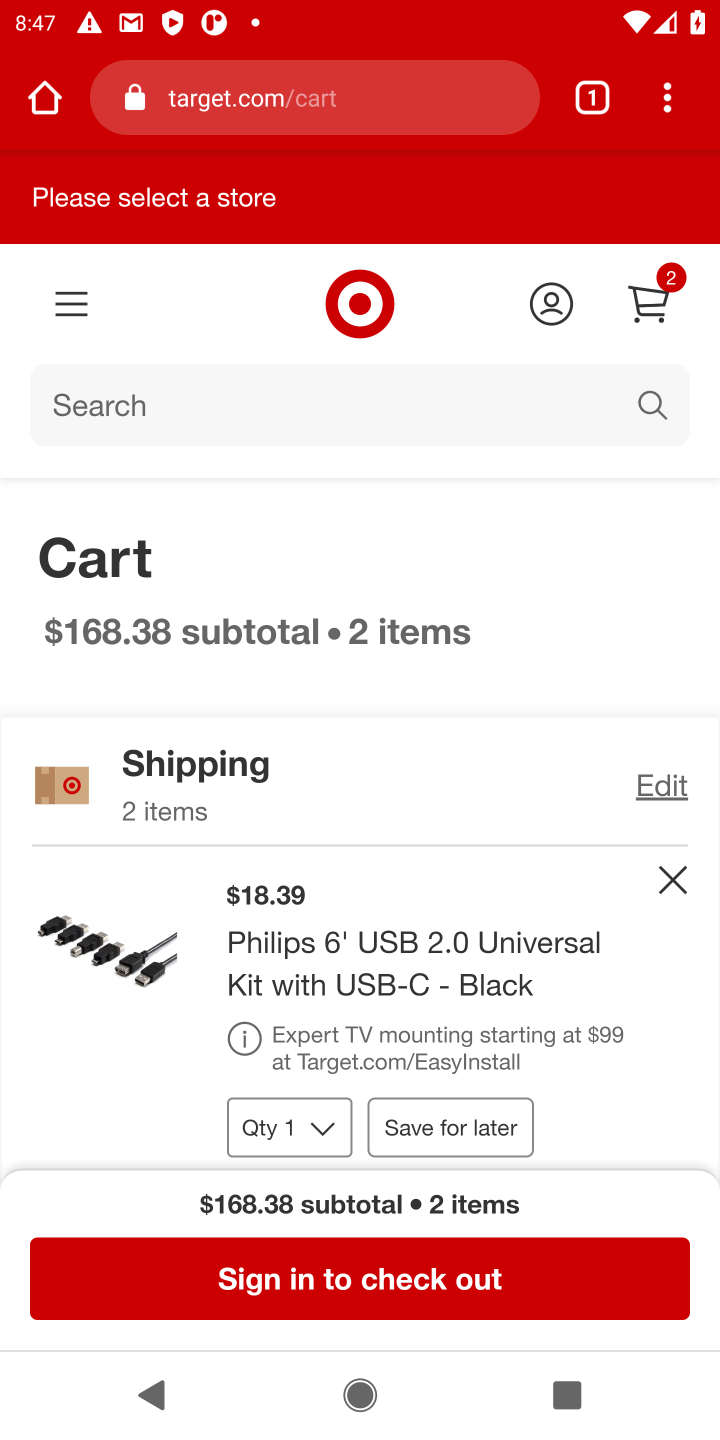
Step 34: drag from (164, 997) to (330, 555)
Your task to perform on an android device: Clear the shopping cart on target. Add "usb-a to usb-b" to the cart on target, then select checkout. Image 35: 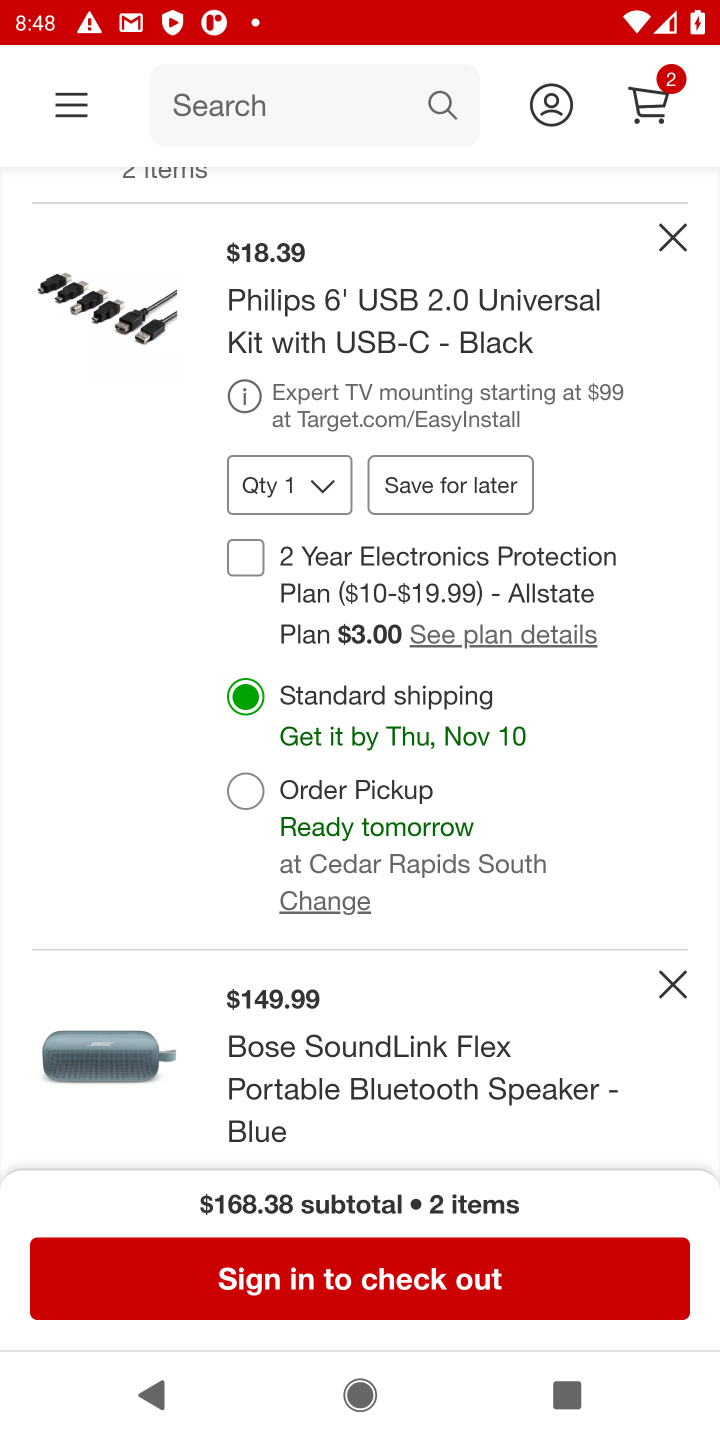
Step 35: drag from (300, 998) to (369, 260)
Your task to perform on an android device: Clear the shopping cart on target. Add "usb-a to usb-b" to the cart on target, then select checkout. Image 36: 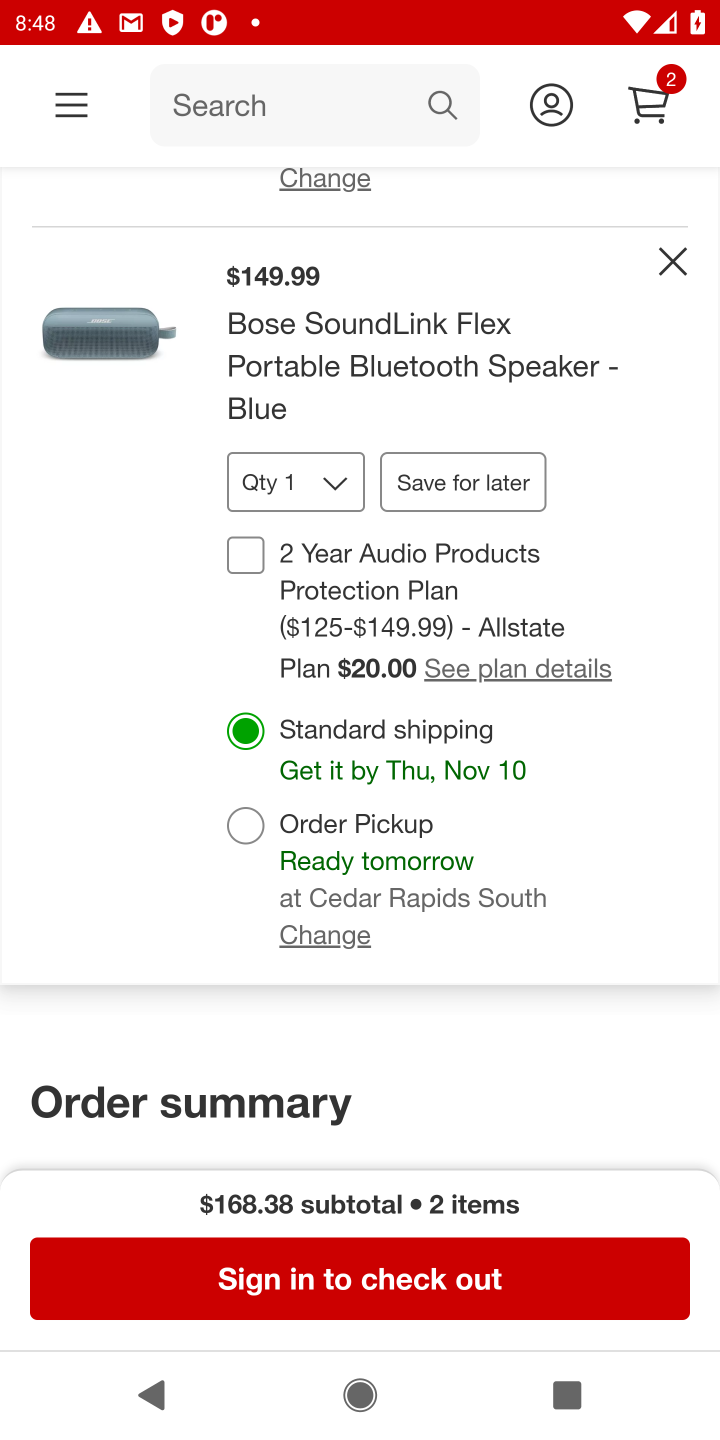
Step 36: click (618, 1301)
Your task to perform on an android device: Clear the shopping cart on target. Add "usb-a to usb-b" to the cart on target, then select checkout. Image 37: 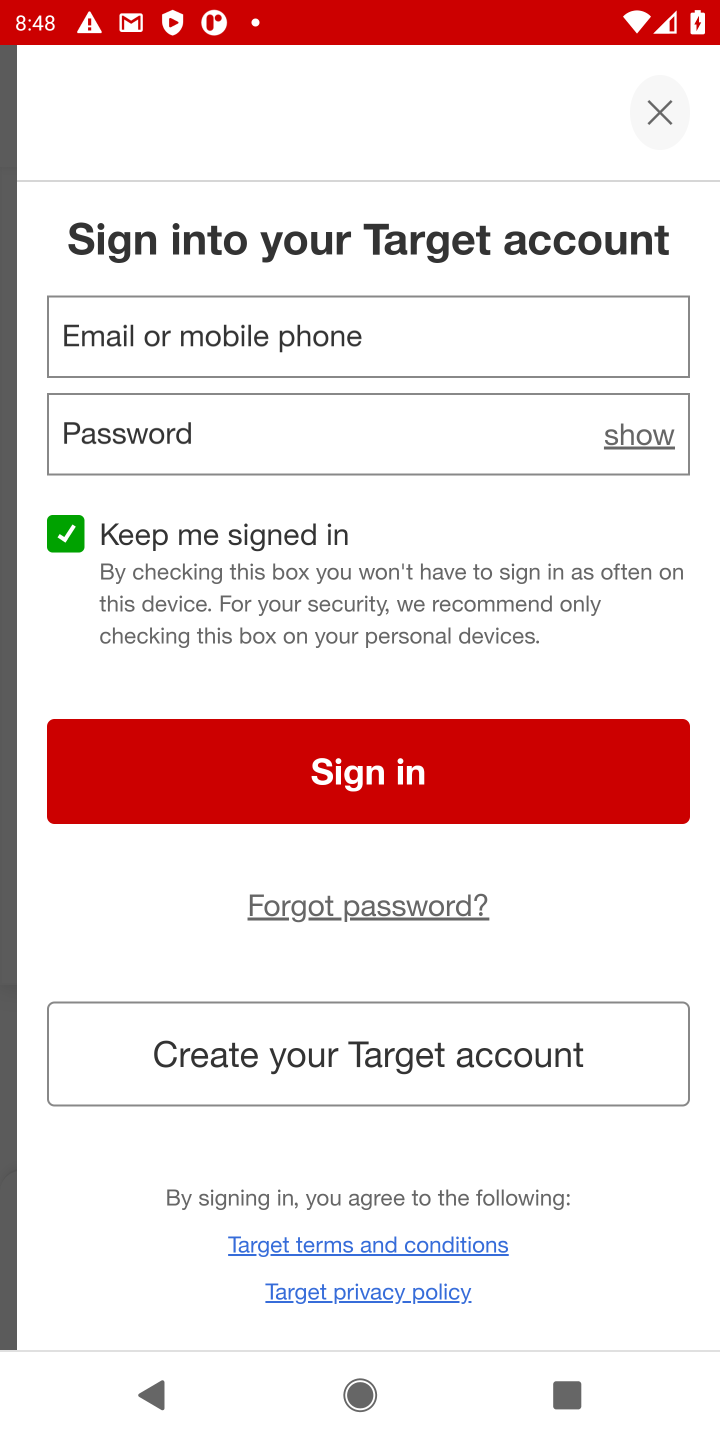
Step 37: task complete